Your task to perform on an android device: Empty the shopping cart on target. Add "alienware aurora" to the cart on target, then select checkout. Image 0: 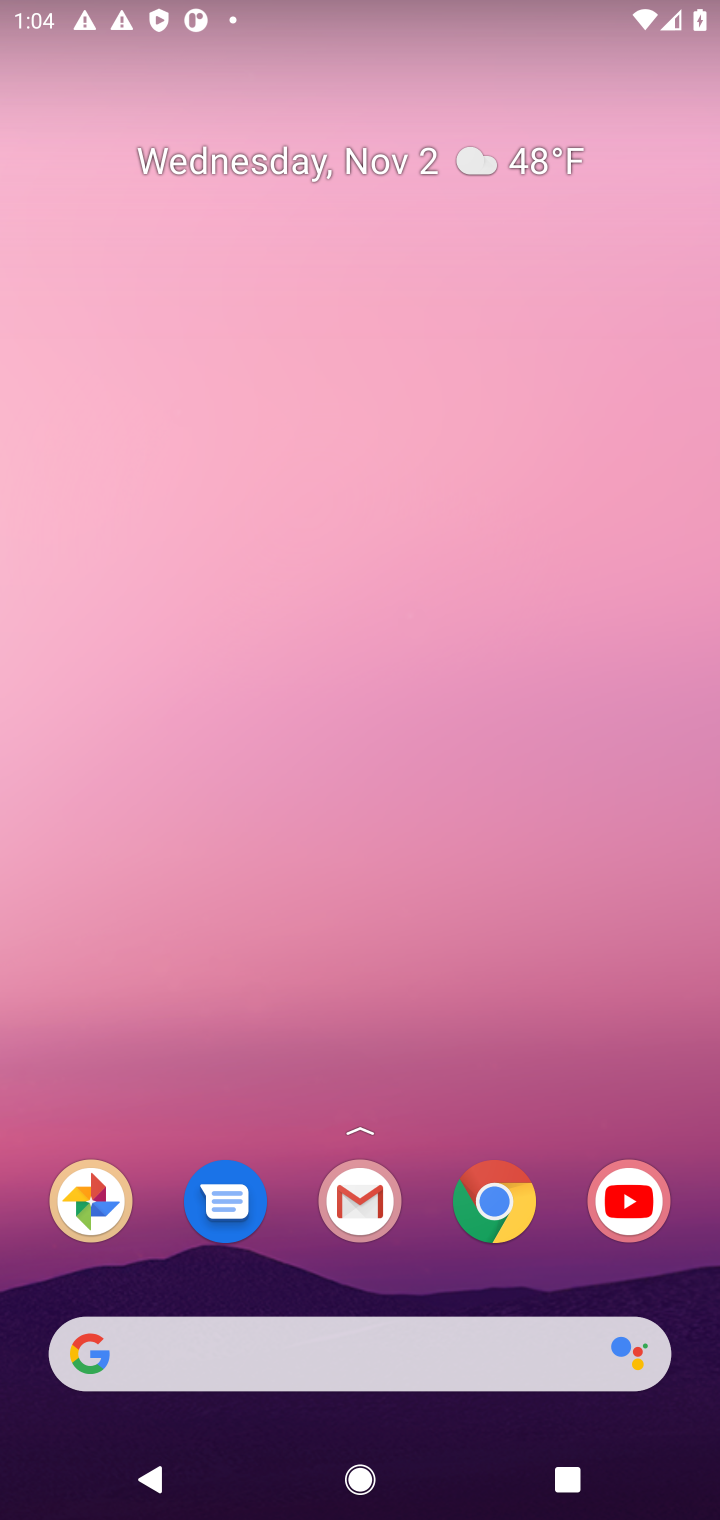
Step 0: click (506, 1207)
Your task to perform on an android device: Empty the shopping cart on target. Add "alienware aurora" to the cart on target, then select checkout. Image 1: 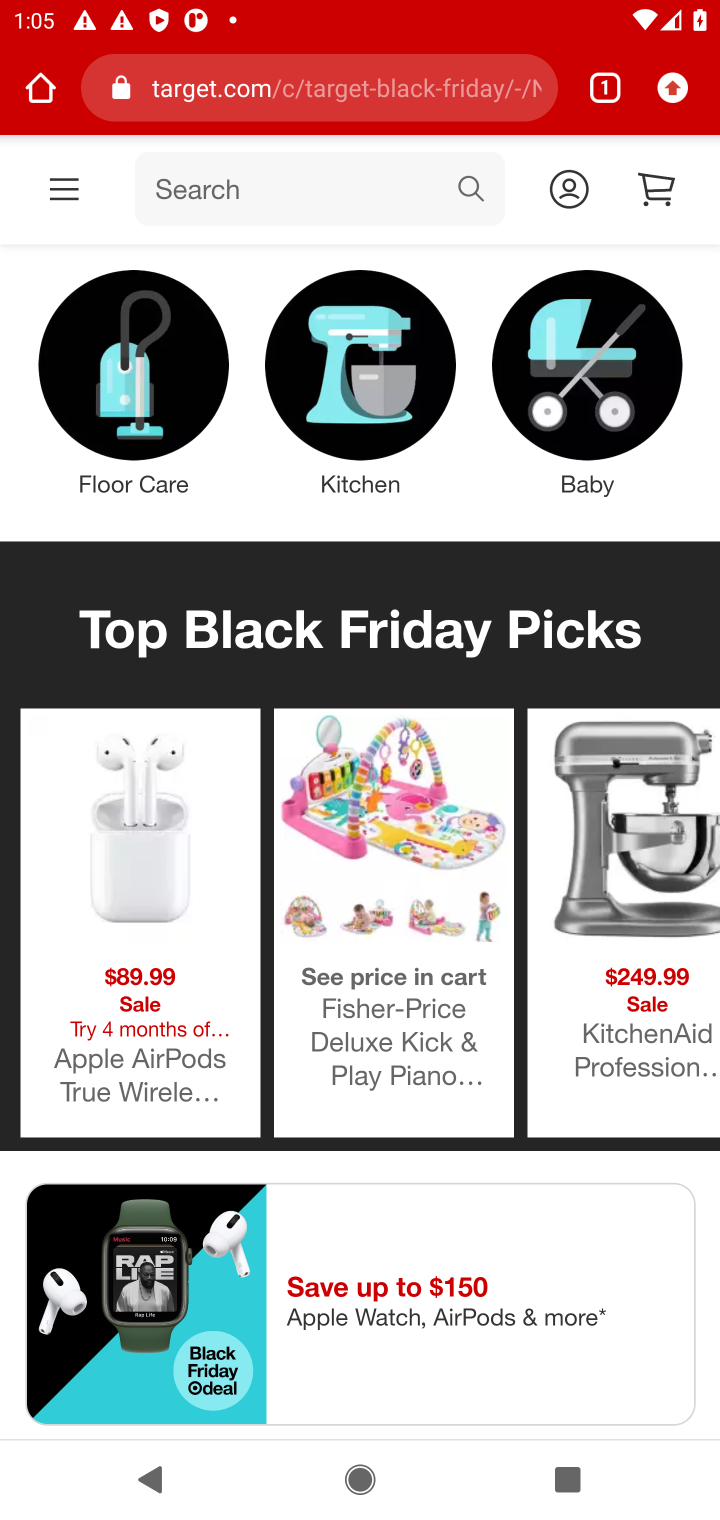
Step 1: click (481, 186)
Your task to perform on an android device: Empty the shopping cart on target. Add "alienware aurora" to the cart on target, then select checkout. Image 2: 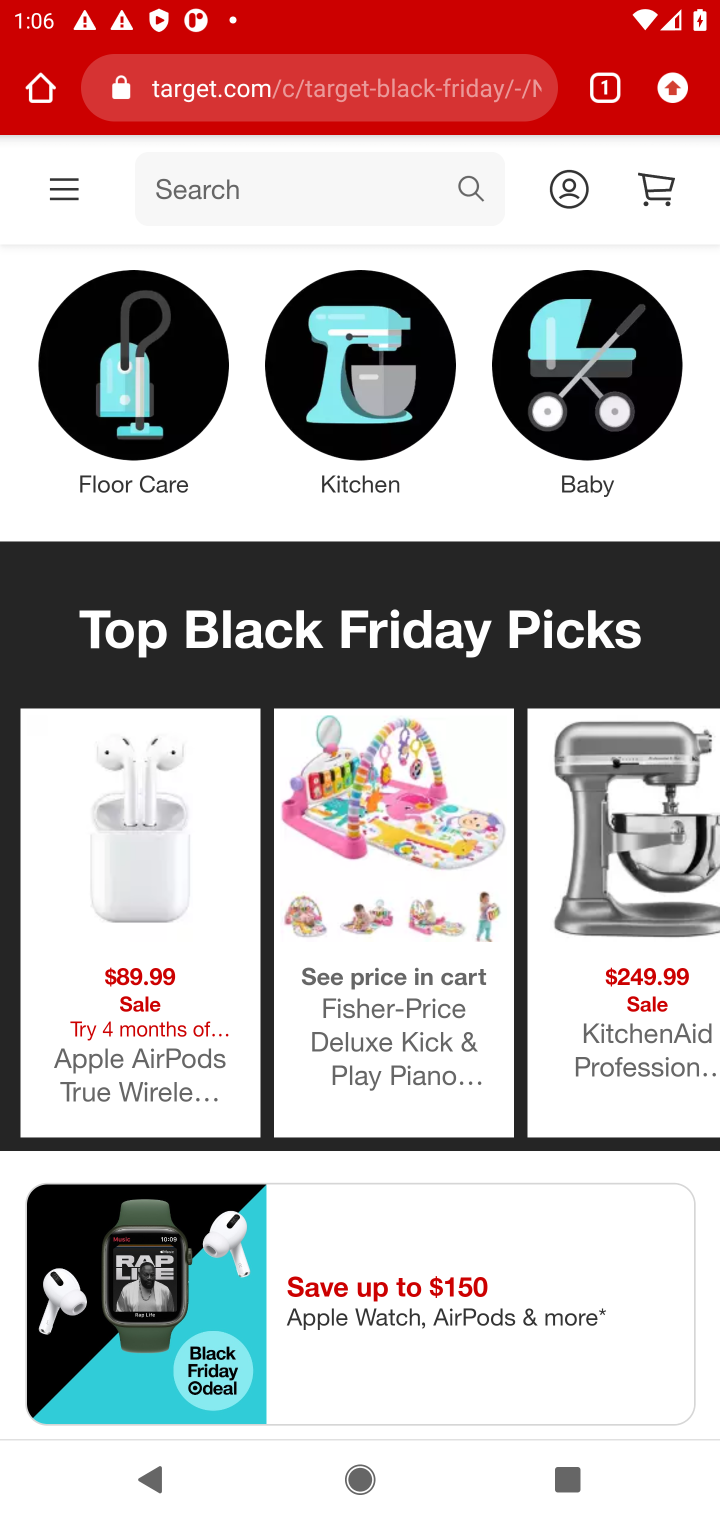
Step 2: click (469, 186)
Your task to perform on an android device: Empty the shopping cart on target. Add "alienware aurora" to the cart on target, then select checkout. Image 3: 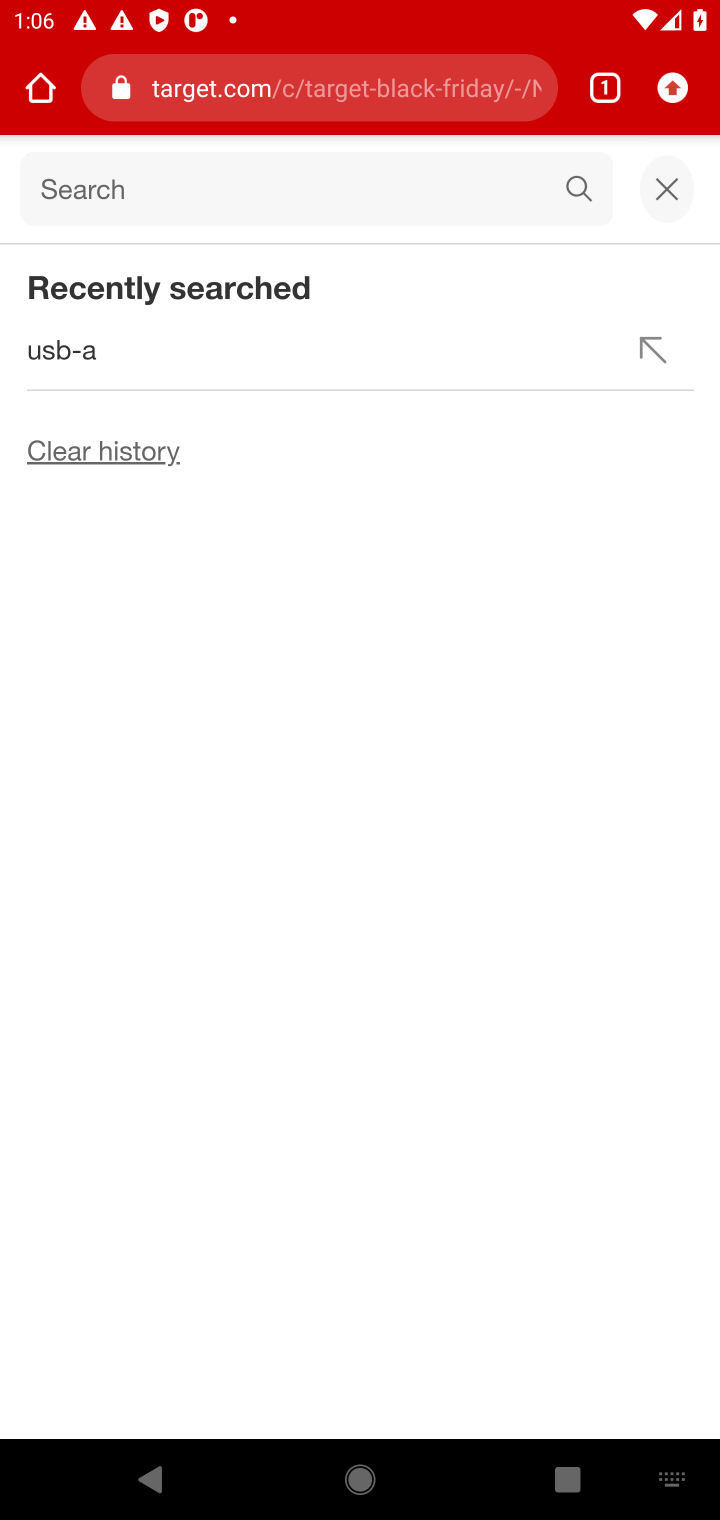
Step 3: click (677, 189)
Your task to perform on an android device: Empty the shopping cart on target. Add "alienware aurora" to the cart on target, then select checkout. Image 4: 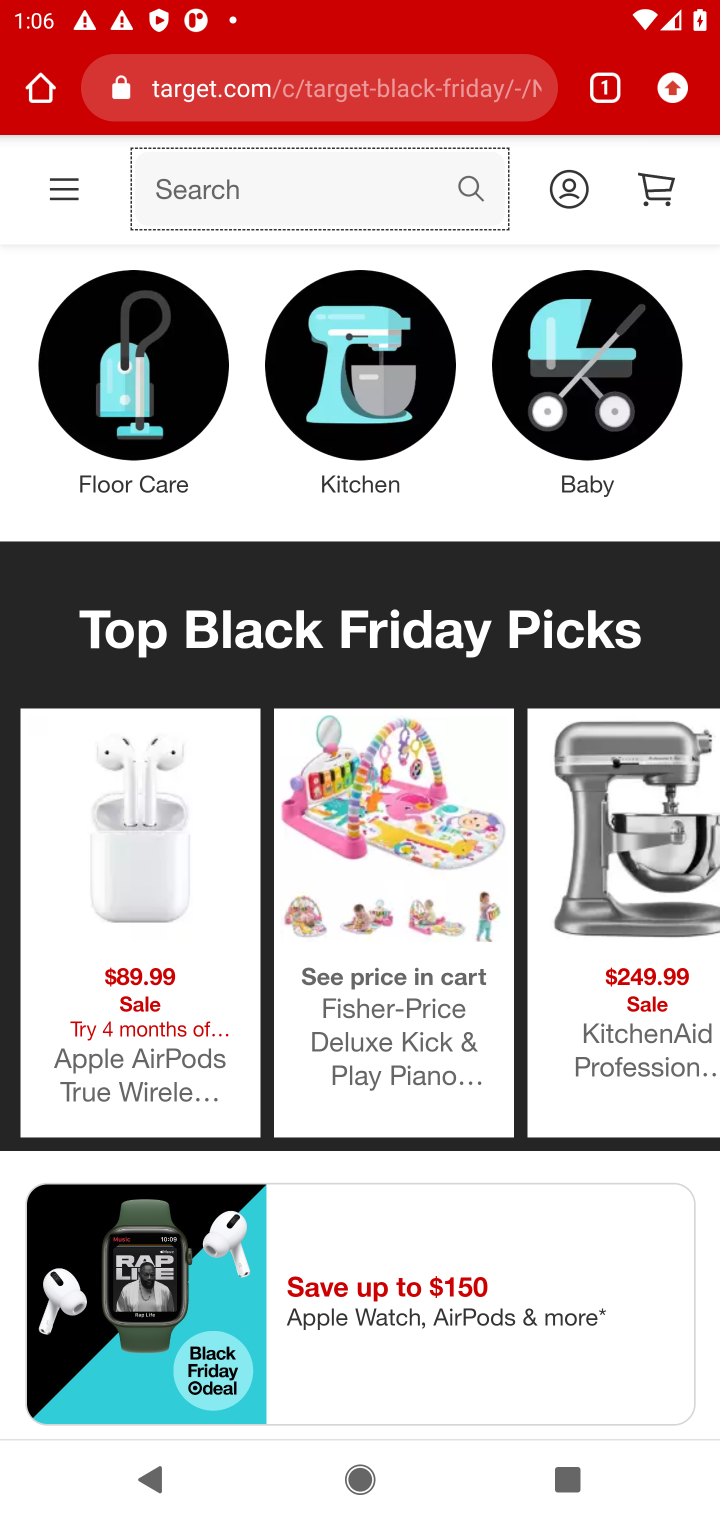
Step 4: click (663, 191)
Your task to perform on an android device: Empty the shopping cart on target. Add "alienware aurora" to the cart on target, then select checkout. Image 5: 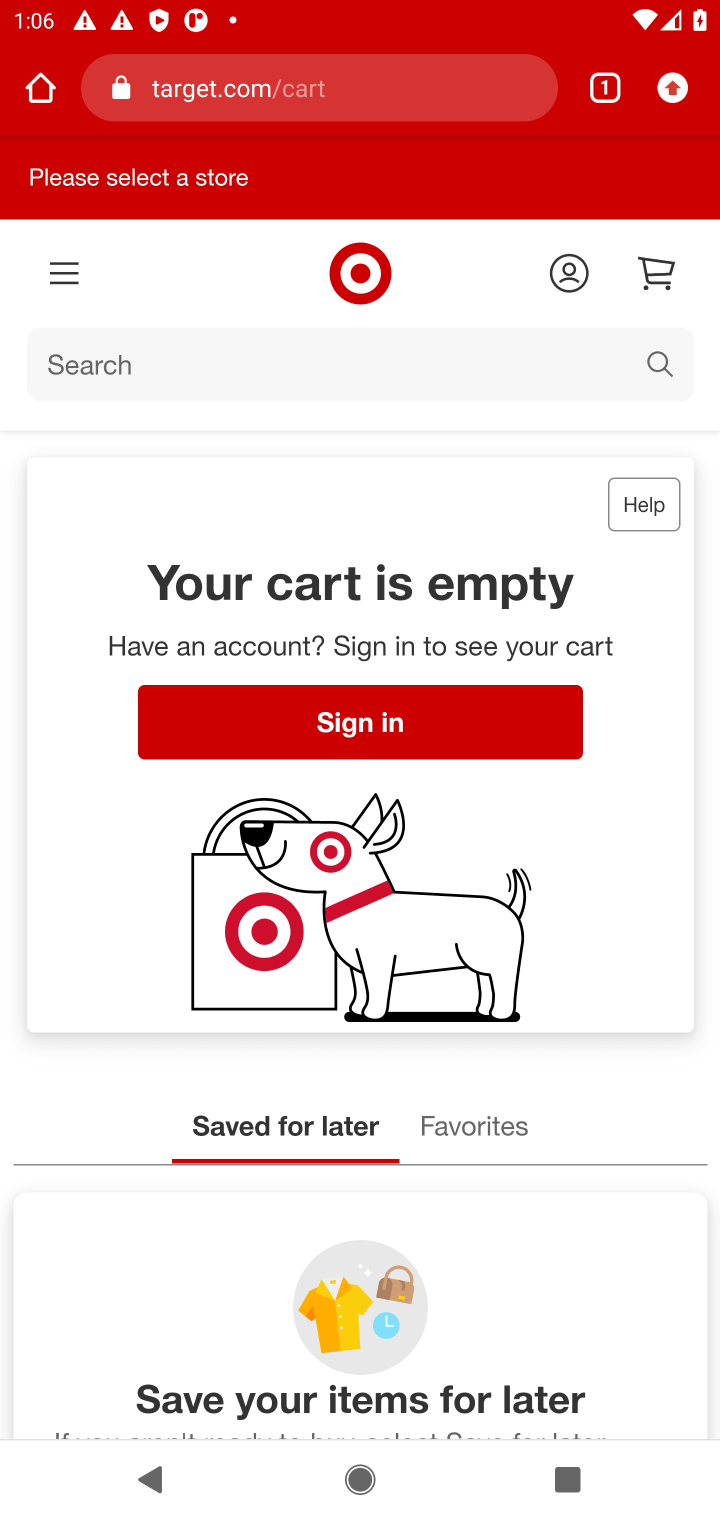
Step 5: click (651, 359)
Your task to perform on an android device: Empty the shopping cart on target. Add "alienware aurora" to the cart on target, then select checkout. Image 6: 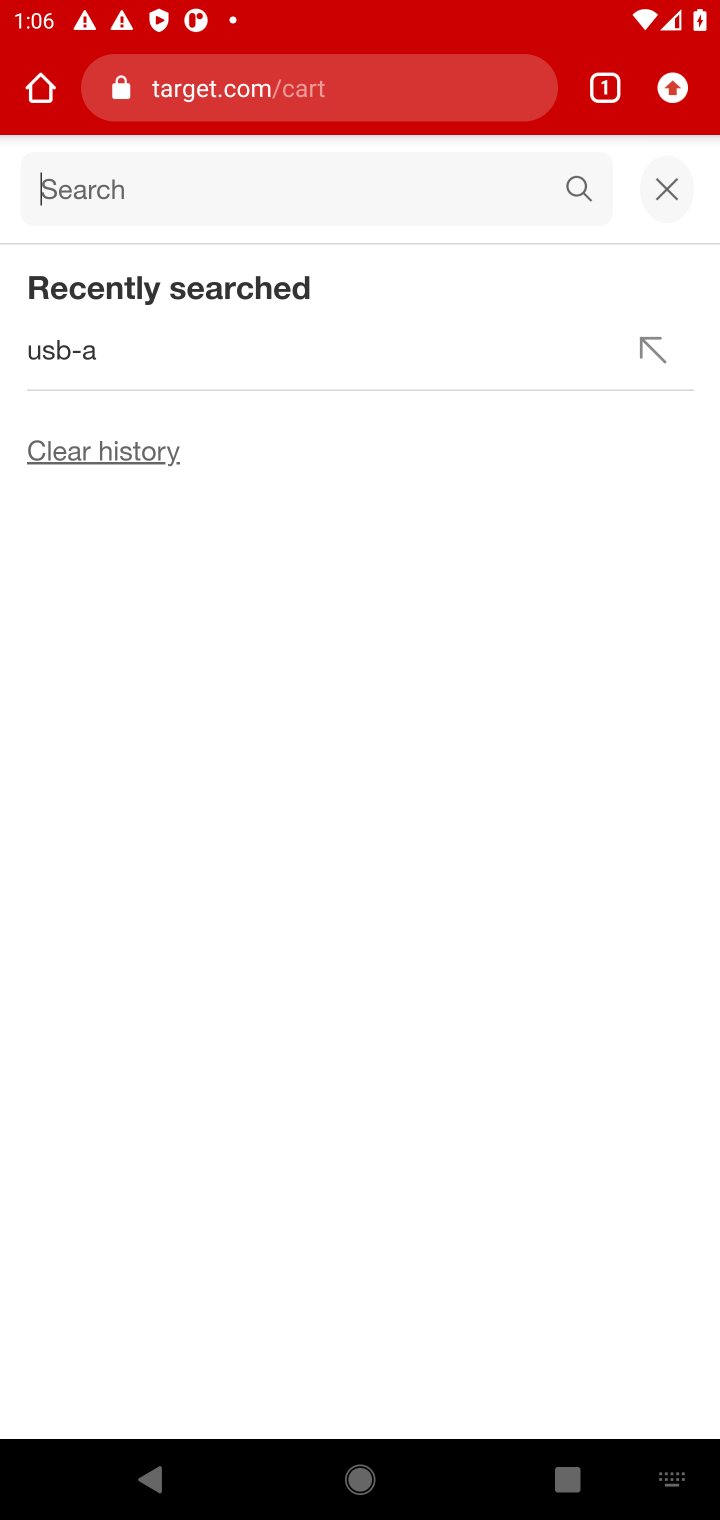
Step 6: press enter
Your task to perform on an android device: Empty the shopping cart on target. Add "alienware aurora" to the cart on target, then select checkout. Image 7: 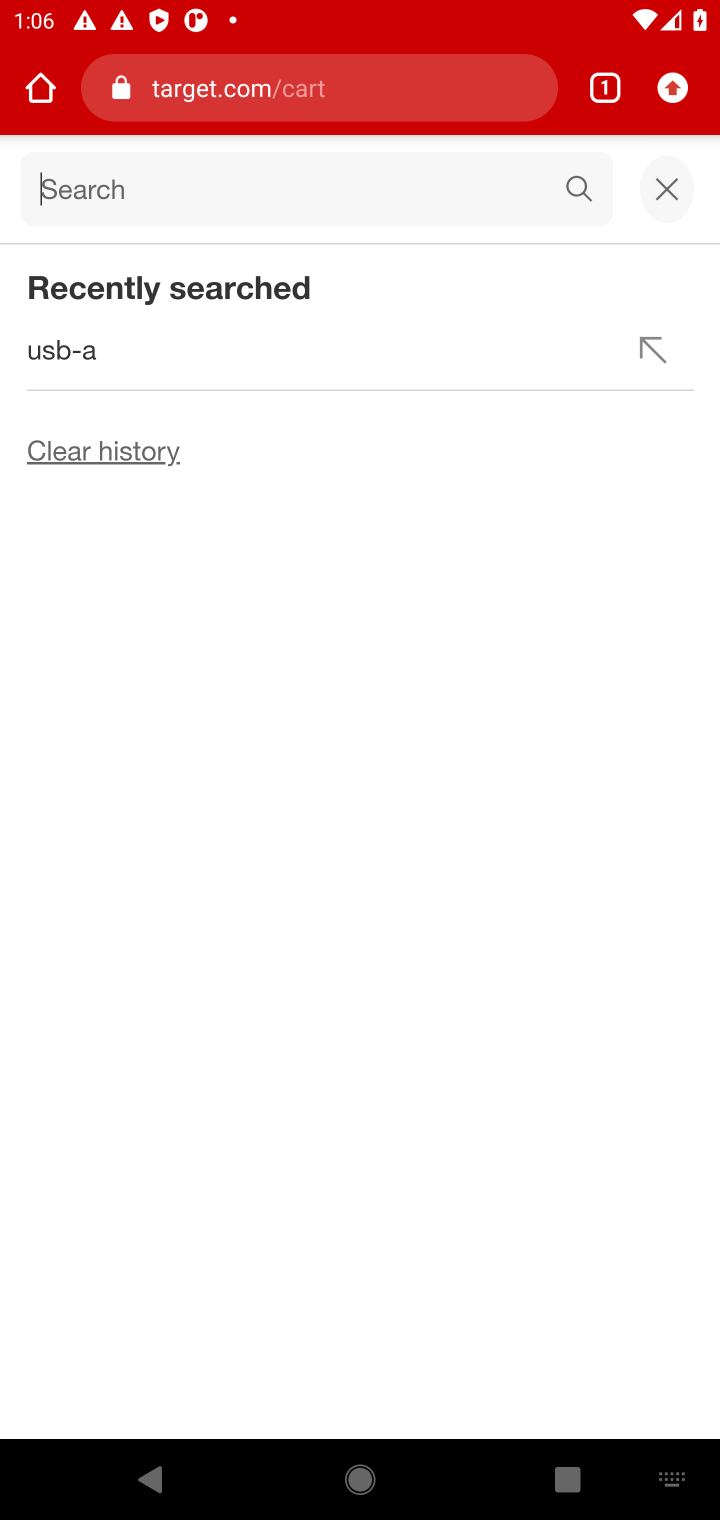
Step 7: type "alienware aurora"
Your task to perform on an android device: Empty the shopping cart on target. Add "alienware aurora" to the cart on target, then select checkout. Image 8: 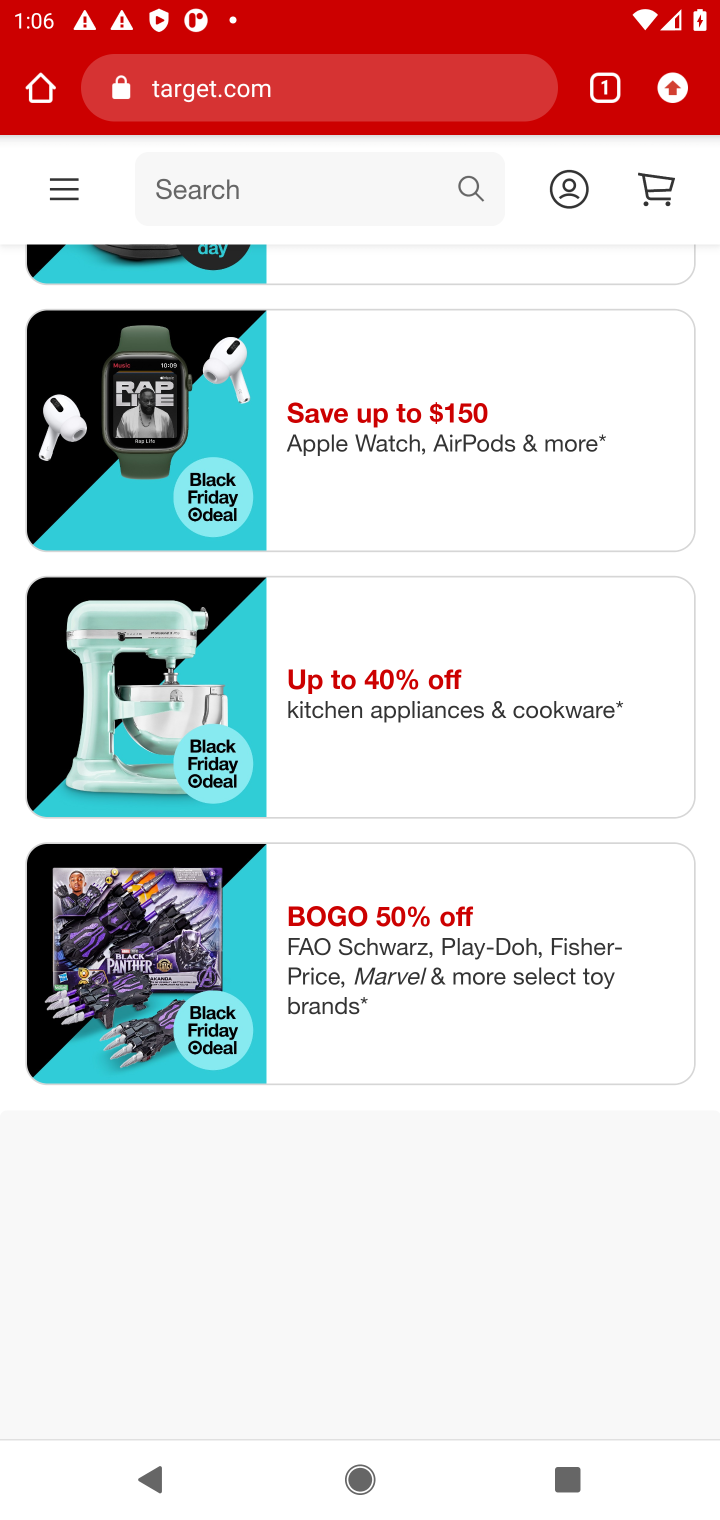
Step 8: click (464, 178)
Your task to perform on an android device: Empty the shopping cart on target. Add "alienware aurora" to the cart on target, then select checkout. Image 9: 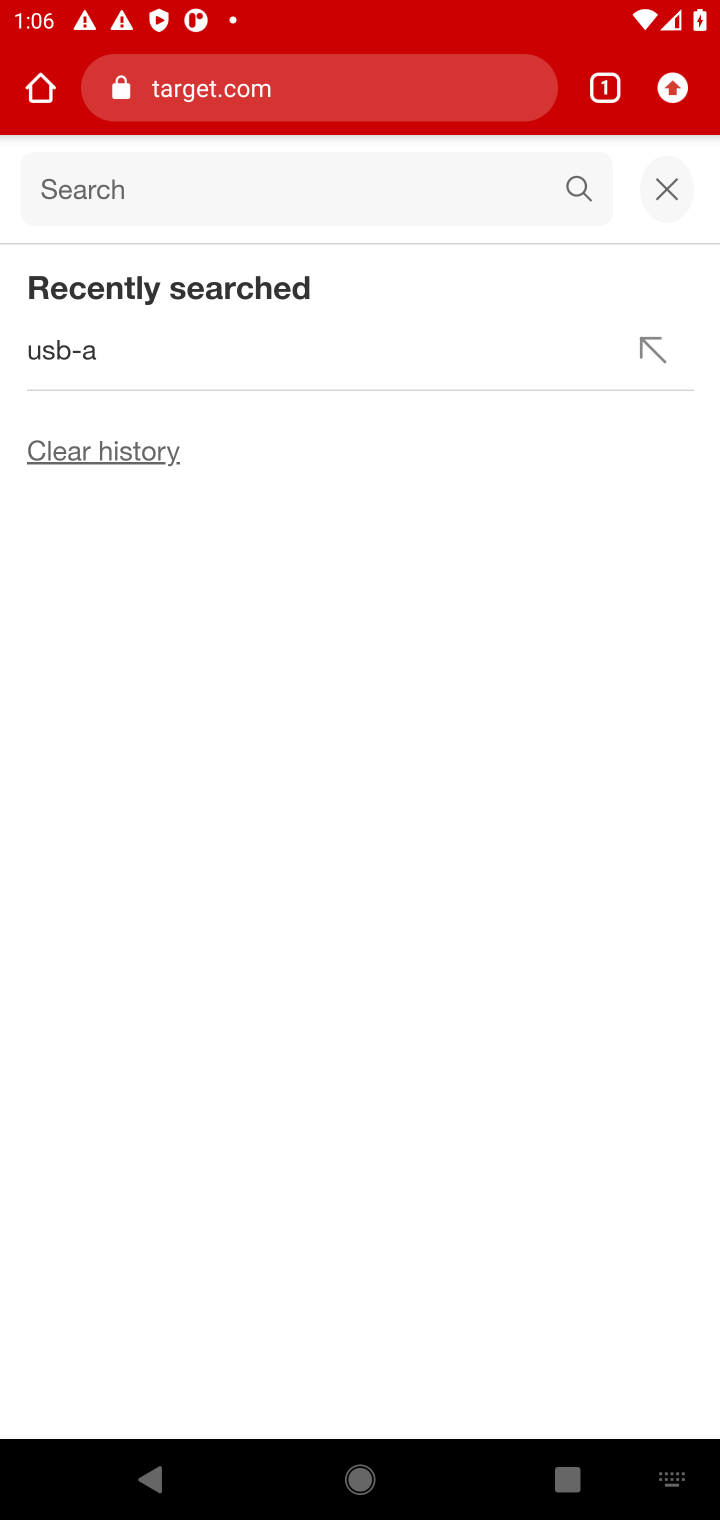
Step 9: type "alienware aurora"
Your task to perform on an android device: Empty the shopping cart on target. Add "alienware aurora" to the cart on target, then select checkout. Image 10: 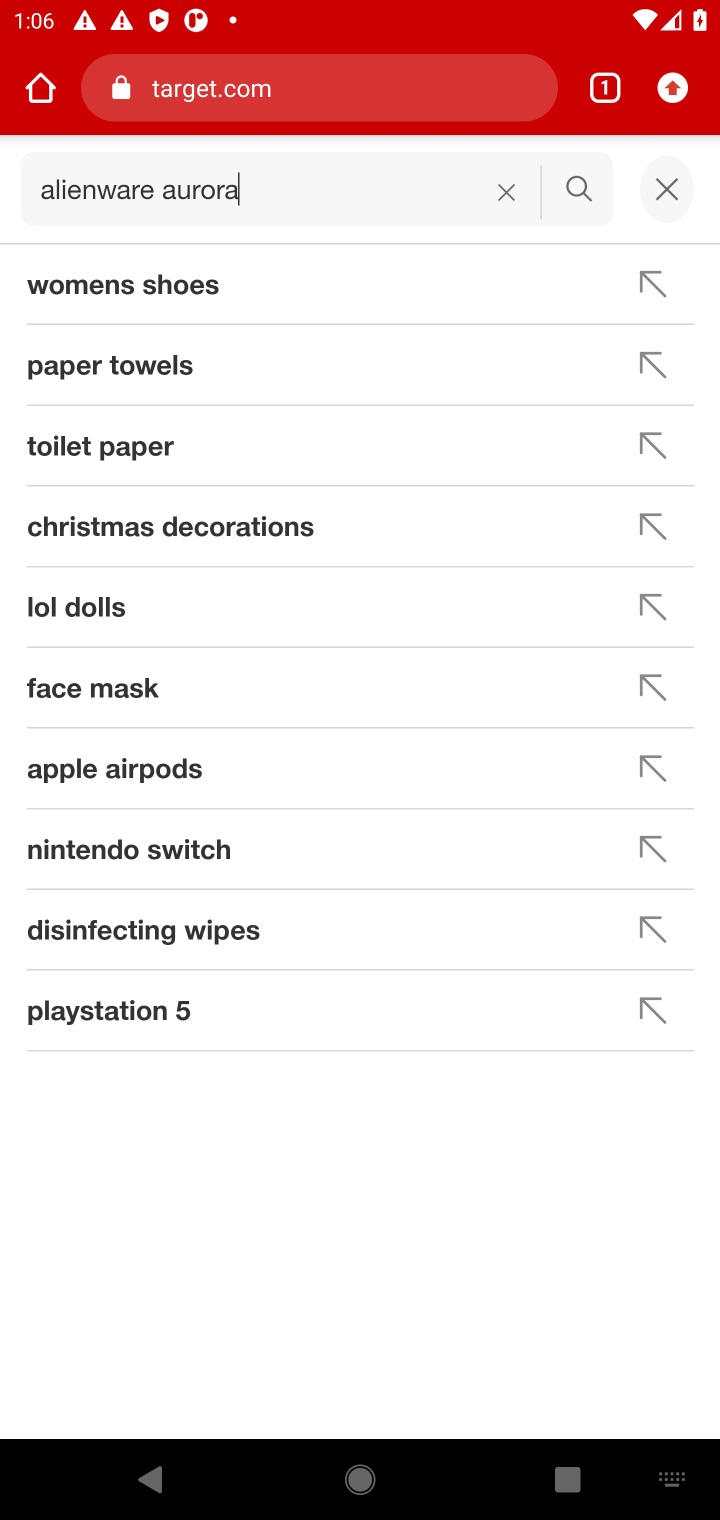
Step 10: press enter
Your task to perform on an android device: Empty the shopping cart on target. Add "alienware aurora" to the cart on target, then select checkout. Image 11: 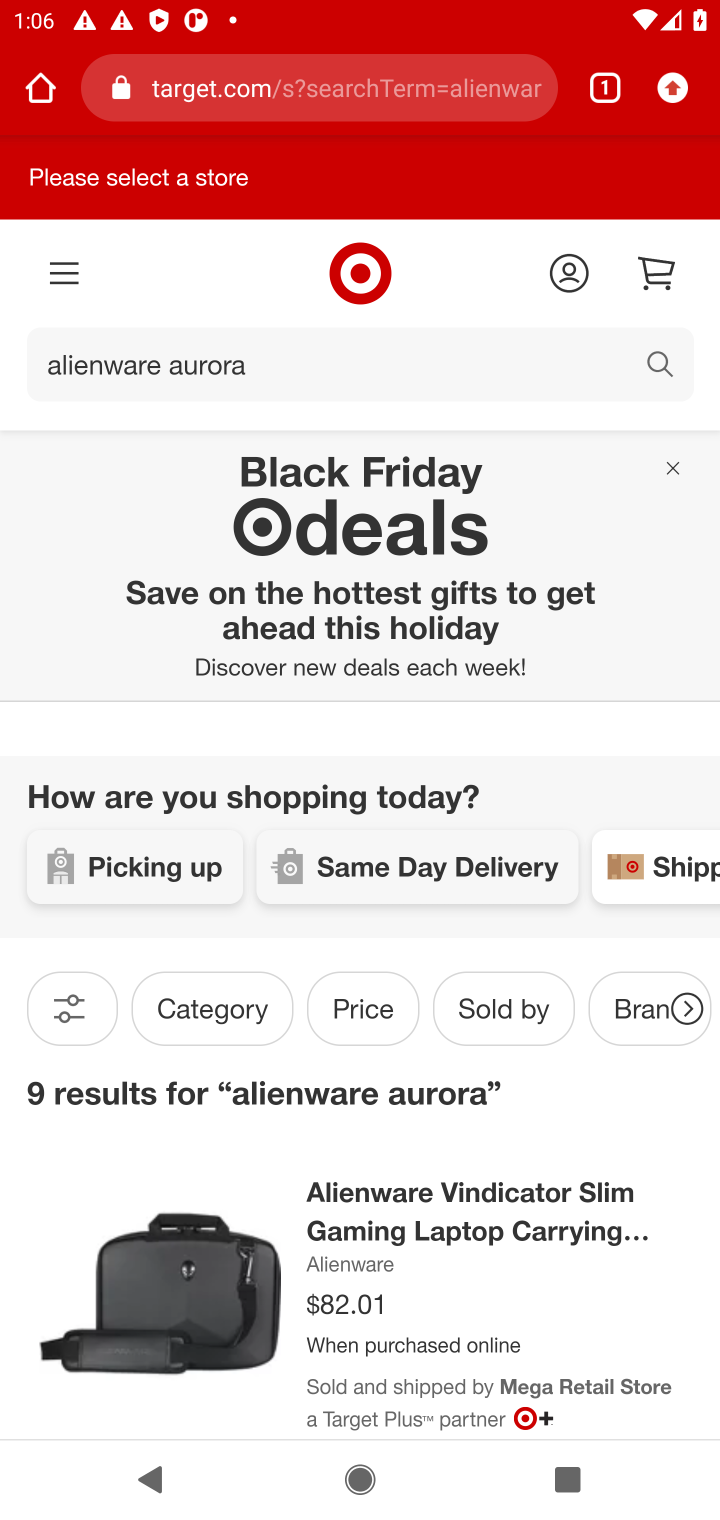
Step 11: drag from (481, 922) to (495, 809)
Your task to perform on an android device: Empty the shopping cart on target. Add "alienware aurora" to the cart on target, then select checkout. Image 12: 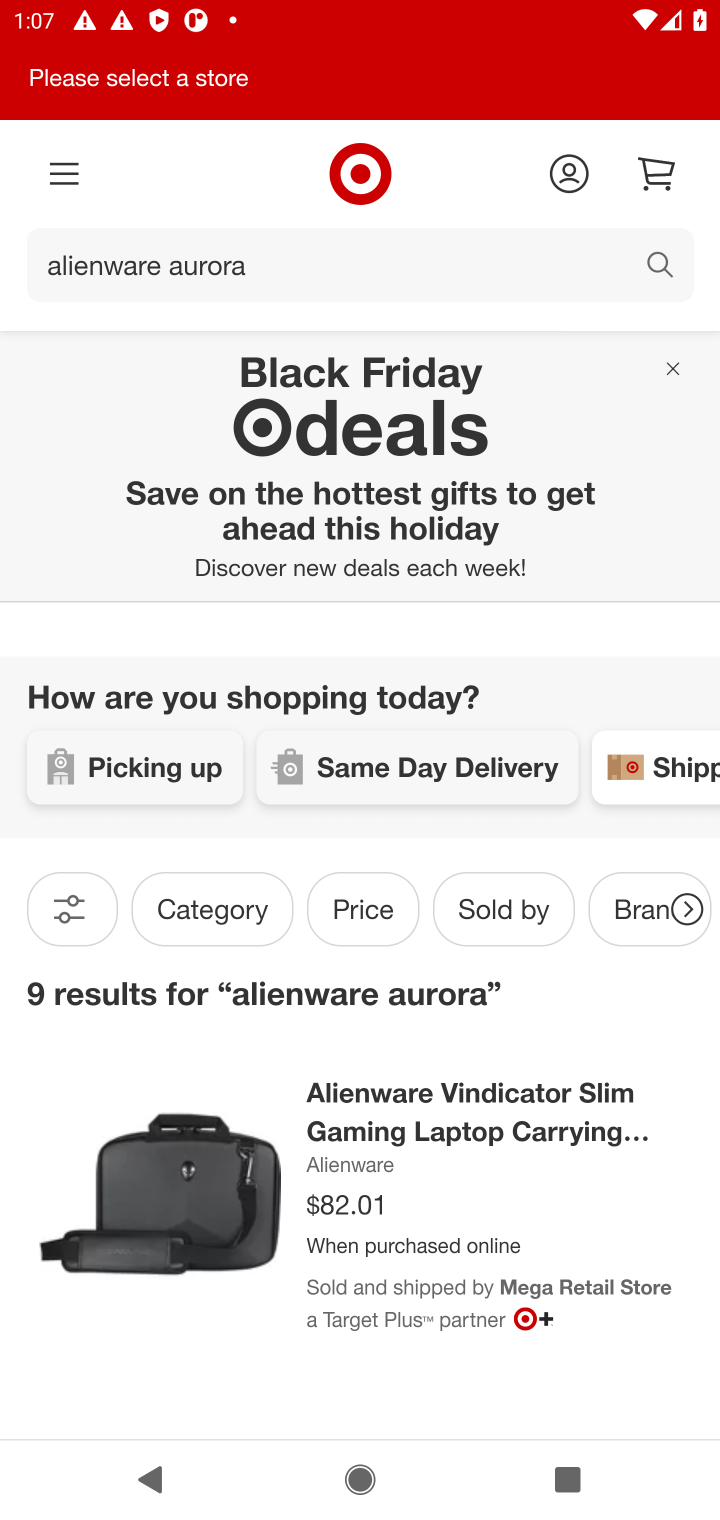
Step 12: drag from (457, 1136) to (462, 554)
Your task to perform on an android device: Empty the shopping cart on target. Add "alienware aurora" to the cart on target, then select checkout. Image 13: 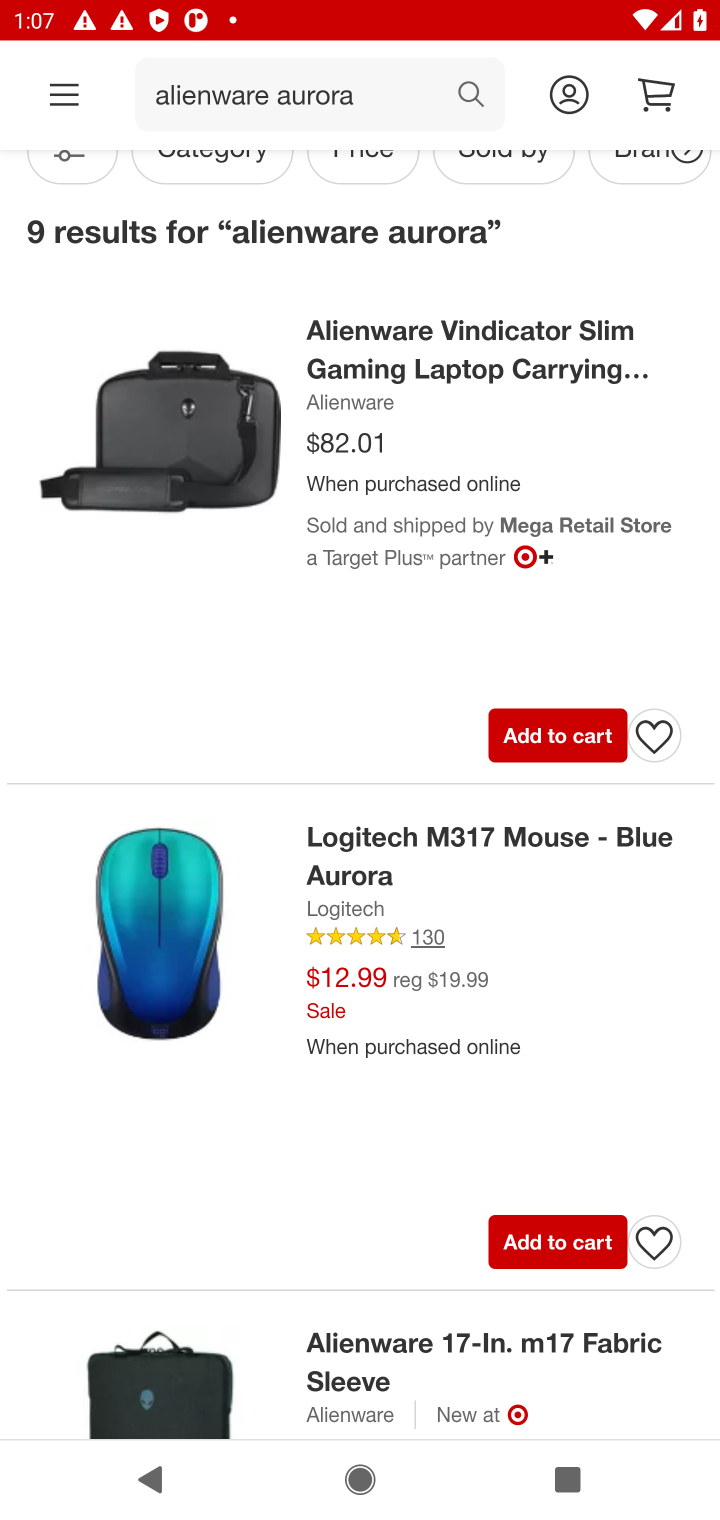
Step 13: drag from (511, 1003) to (505, 464)
Your task to perform on an android device: Empty the shopping cart on target. Add "alienware aurora" to the cart on target, then select checkout. Image 14: 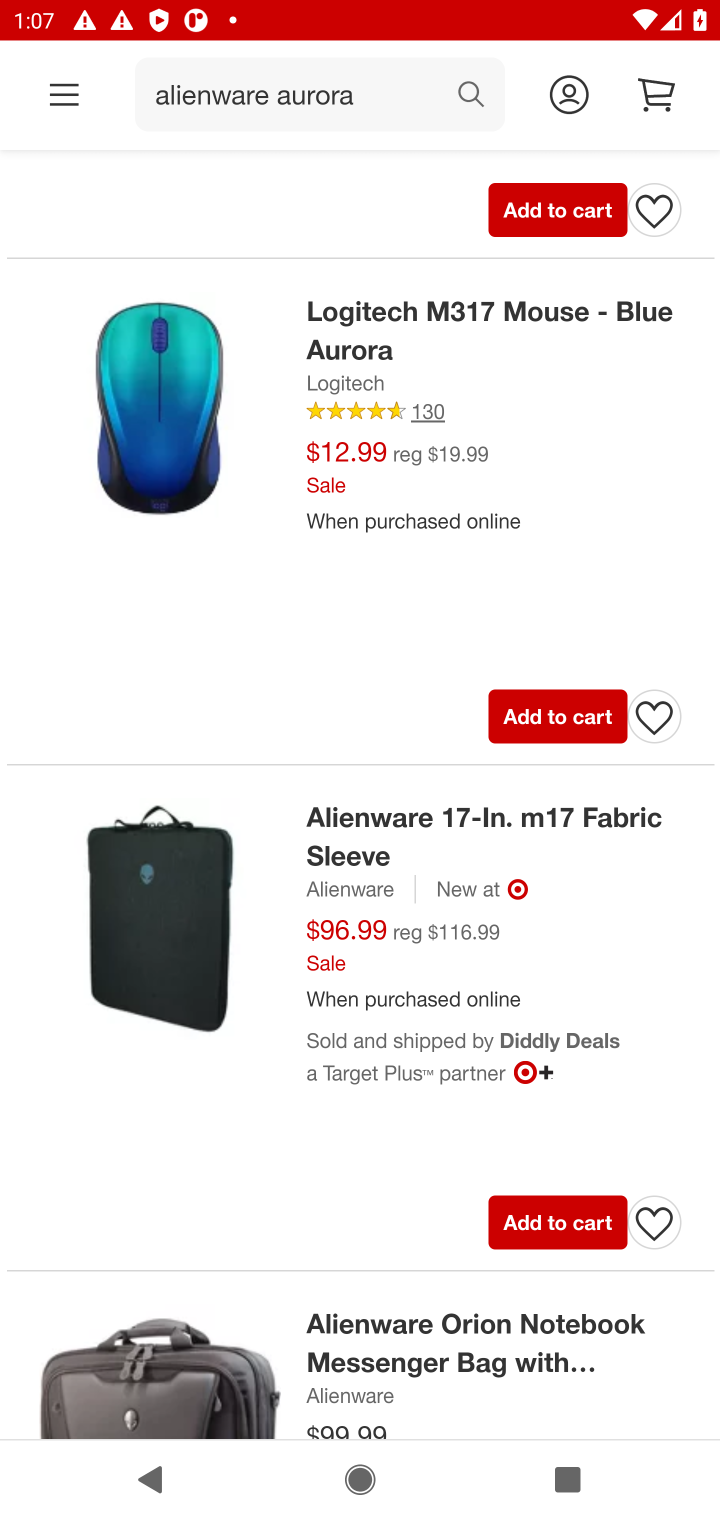
Step 14: drag from (443, 1308) to (436, 696)
Your task to perform on an android device: Empty the shopping cart on target. Add "alienware aurora" to the cart on target, then select checkout. Image 15: 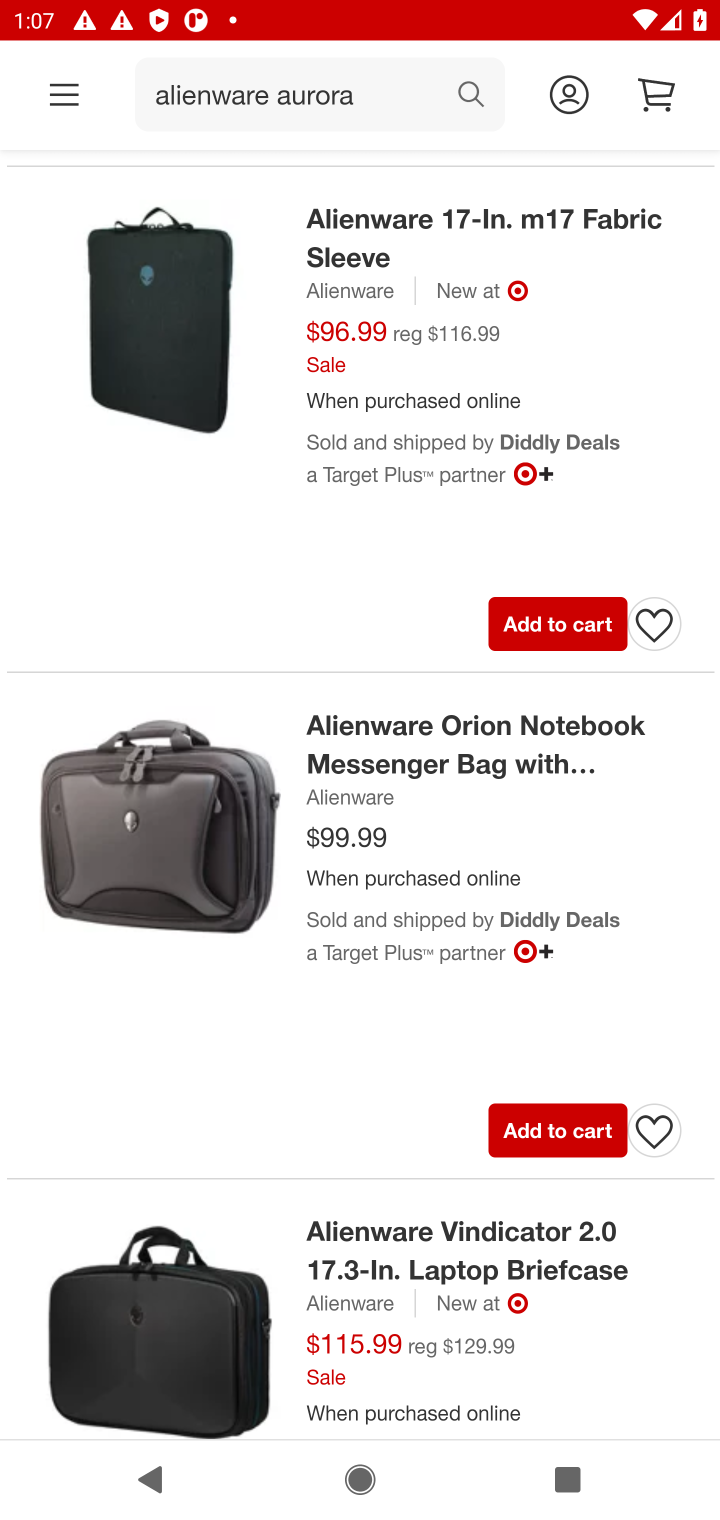
Step 15: drag from (519, 1280) to (548, 897)
Your task to perform on an android device: Empty the shopping cart on target. Add "alienware aurora" to the cart on target, then select checkout. Image 16: 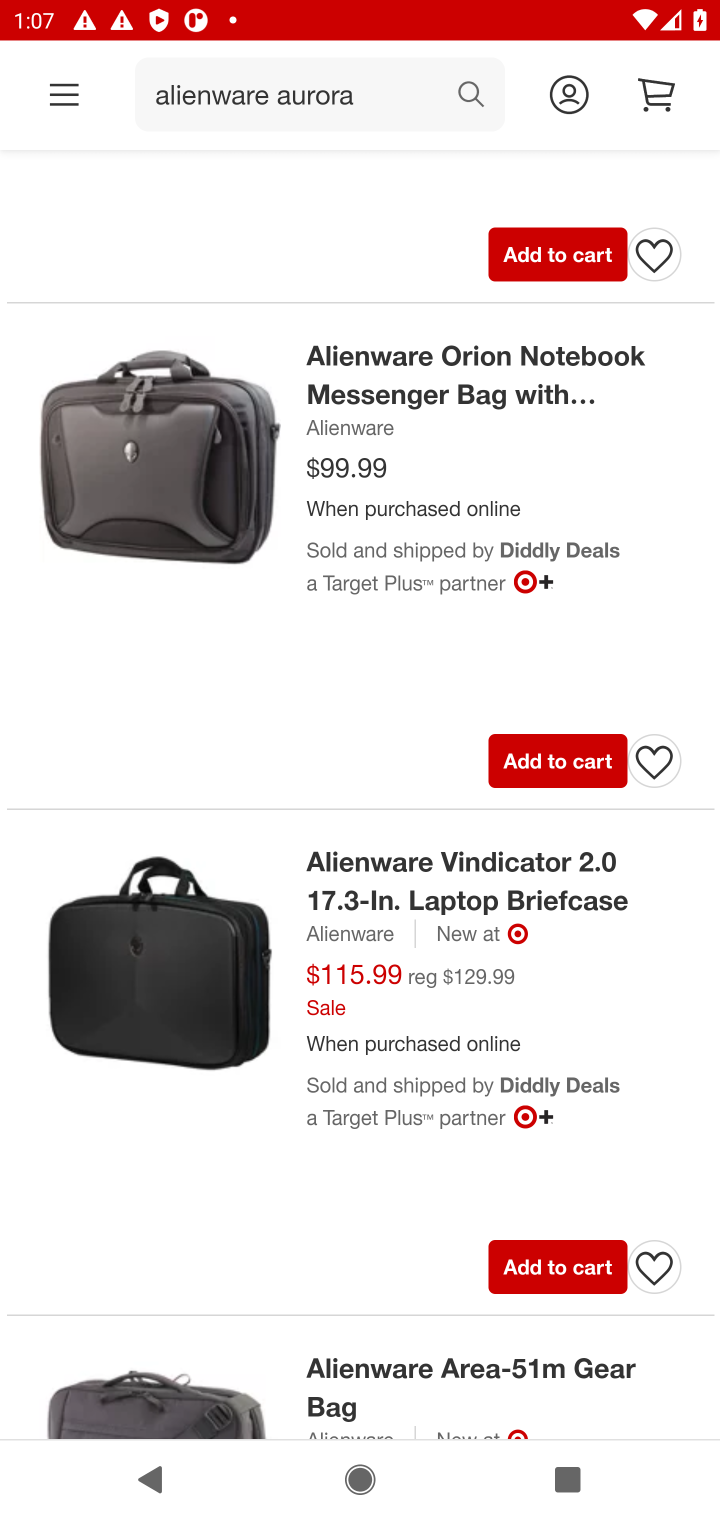
Step 16: drag from (336, 1198) to (371, 905)
Your task to perform on an android device: Empty the shopping cart on target. Add "alienware aurora" to the cart on target, then select checkout. Image 17: 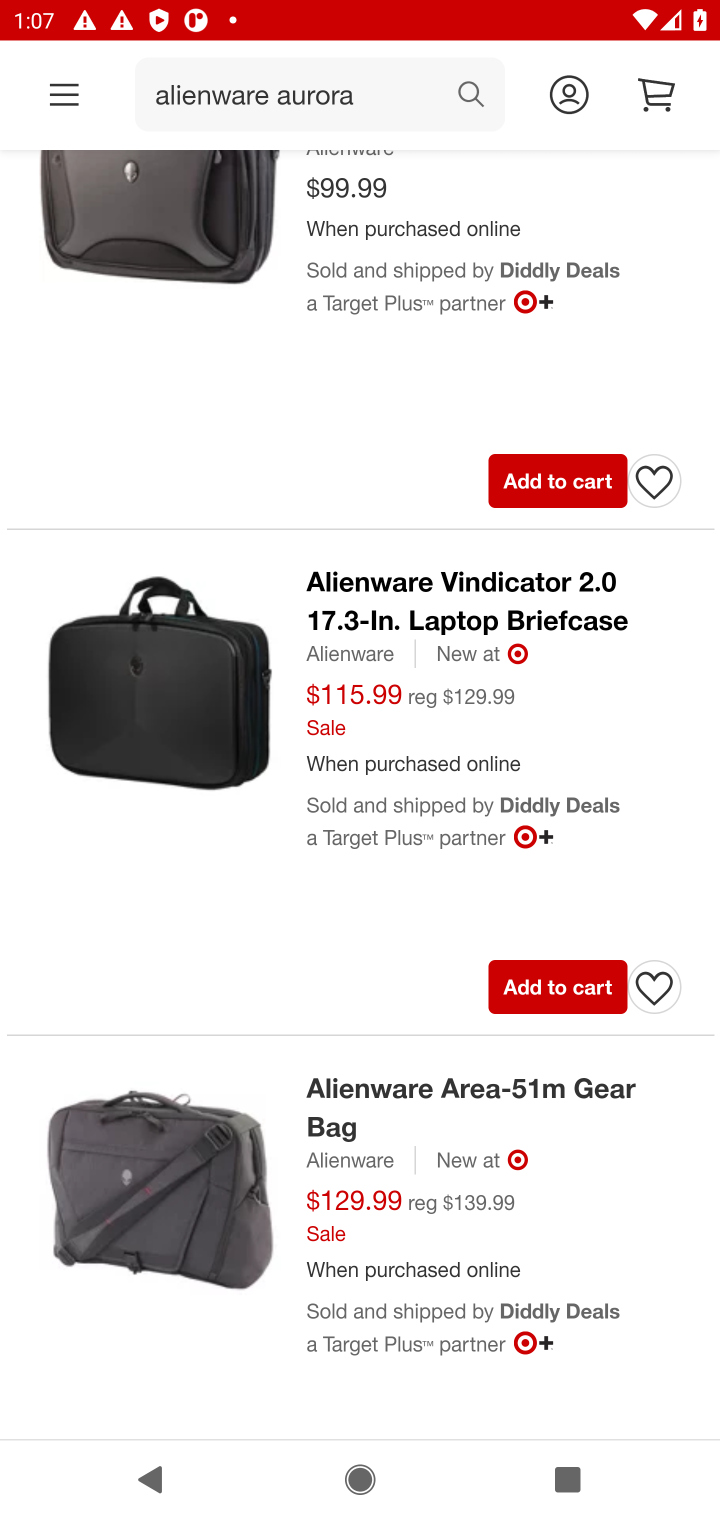
Step 17: drag from (475, 1164) to (501, 731)
Your task to perform on an android device: Empty the shopping cart on target. Add "alienware aurora" to the cart on target, then select checkout. Image 18: 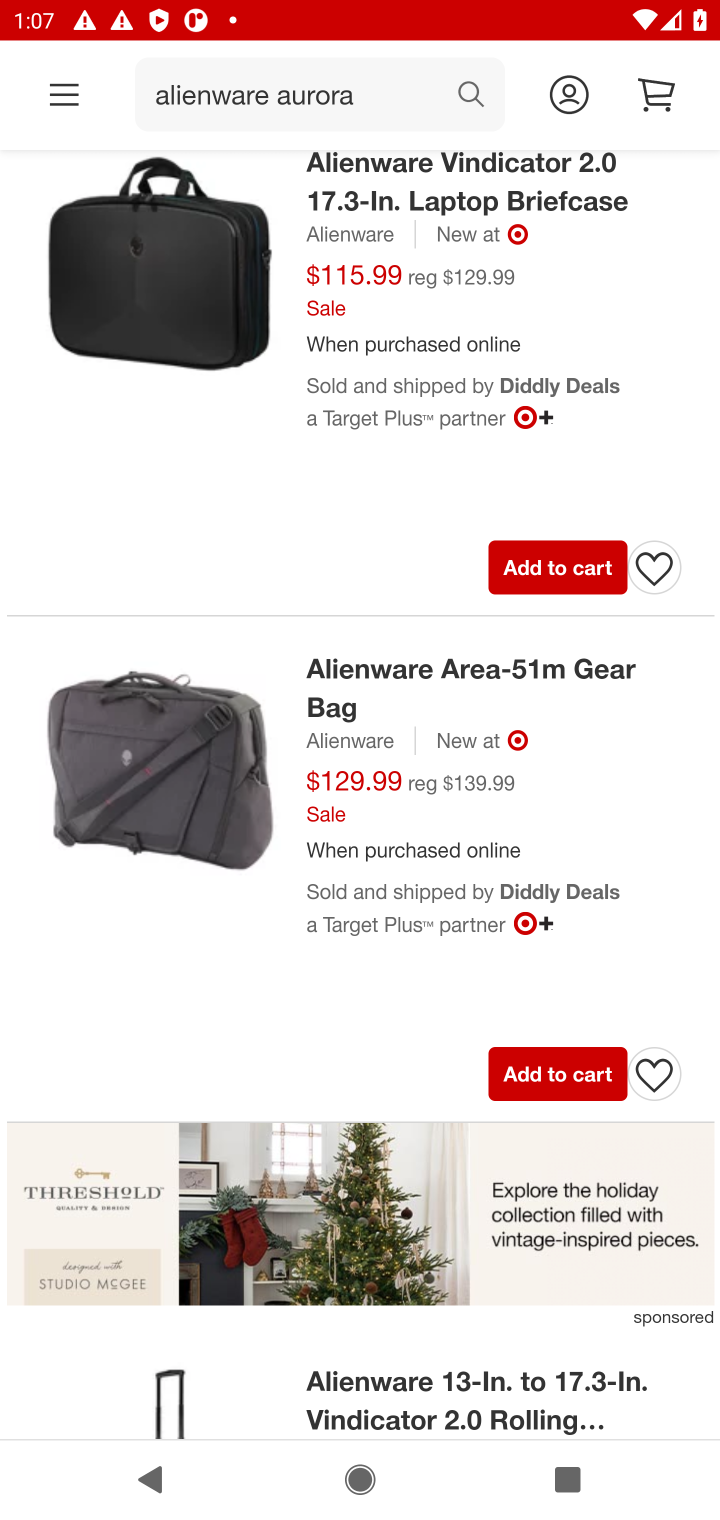
Step 18: drag from (446, 1125) to (444, 612)
Your task to perform on an android device: Empty the shopping cart on target. Add "alienware aurora" to the cart on target, then select checkout. Image 19: 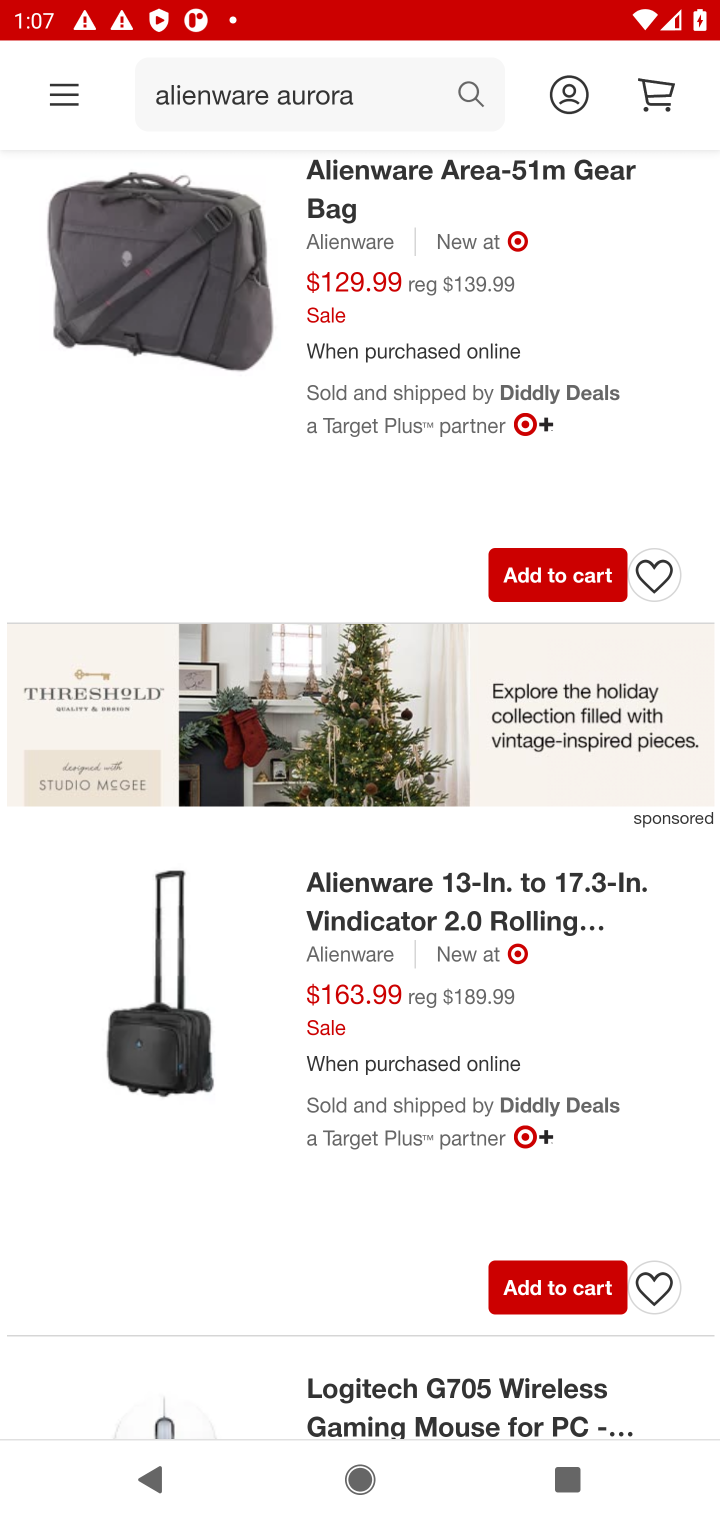
Step 19: drag from (414, 839) to (416, 573)
Your task to perform on an android device: Empty the shopping cart on target. Add "alienware aurora" to the cart on target, then select checkout. Image 20: 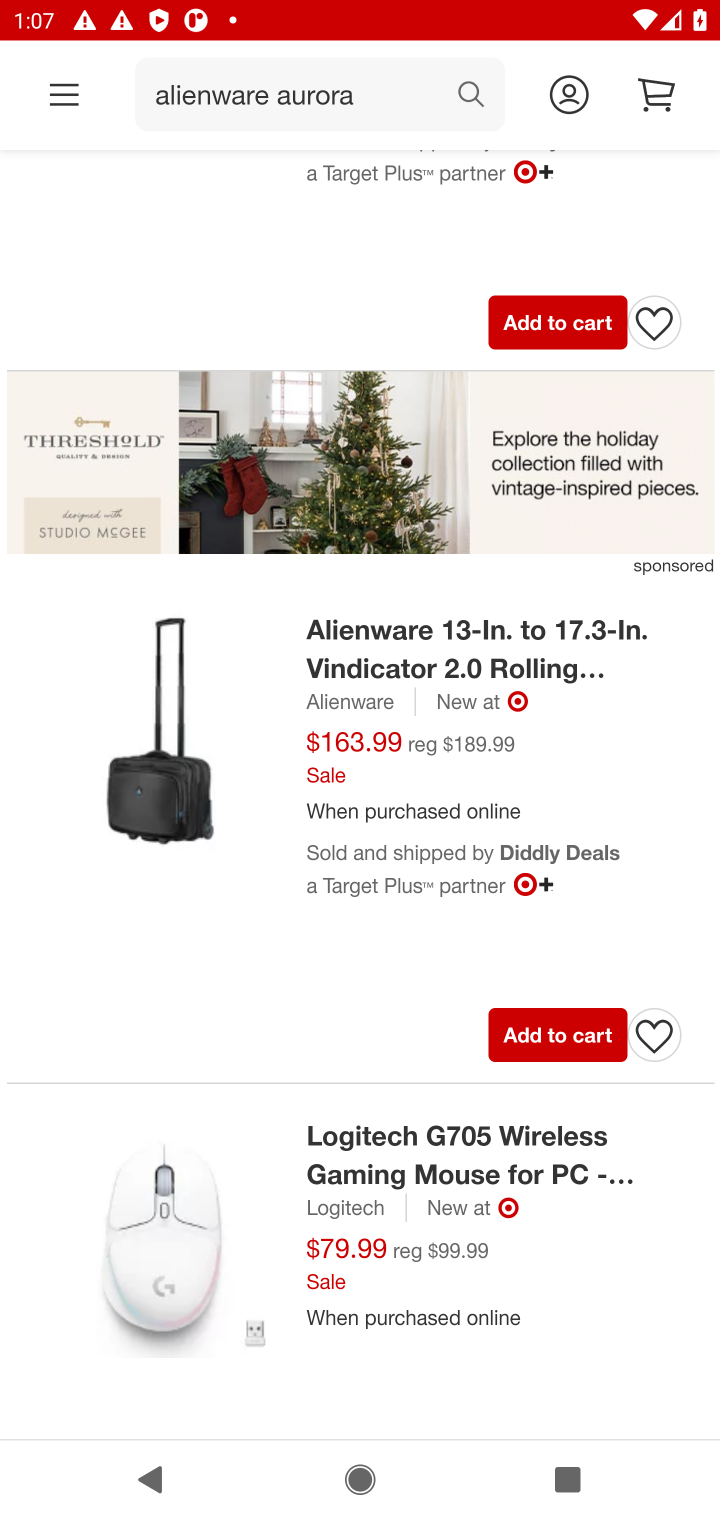
Step 20: drag from (392, 958) to (454, 541)
Your task to perform on an android device: Empty the shopping cart on target. Add "alienware aurora" to the cart on target, then select checkout. Image 21: 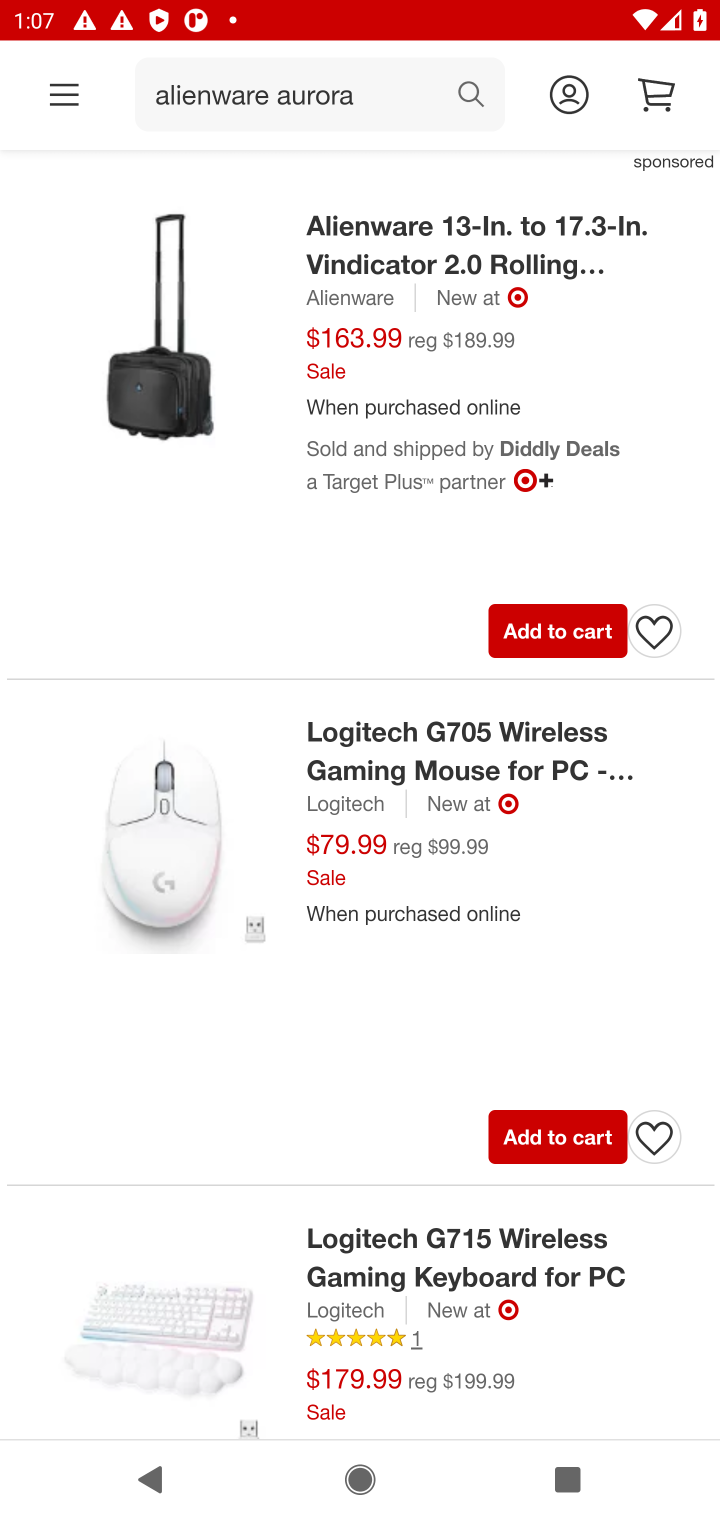
Step 21: drag from (362, 794) to (435, 1364)
Your task to perform on an android device: Empty the shopping cart on target. Add "alienware aurora" to the cart on target, then select checkout. Image 22: 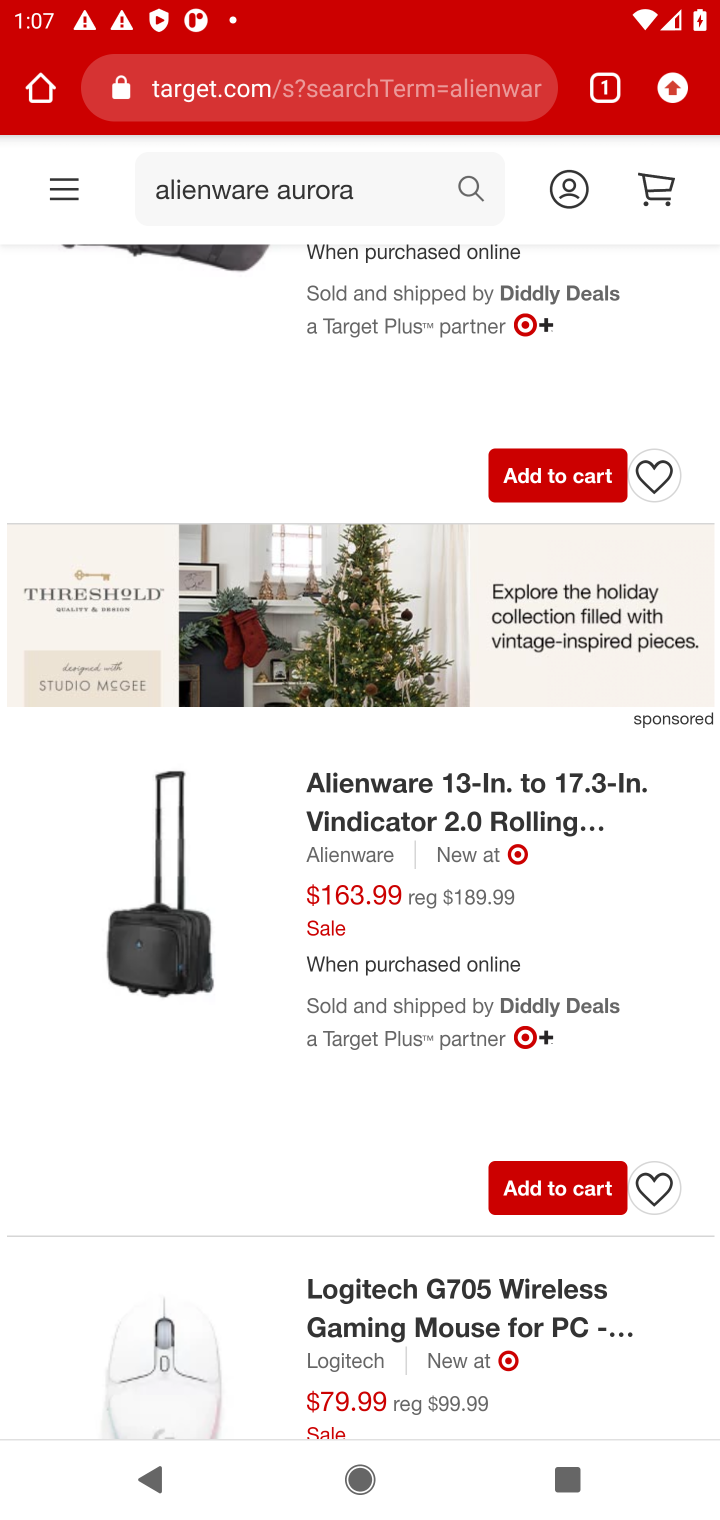
Step 22: drag from (238, 381) to (313, 1056)
Your task to perform on an android device: Empty the shopping cart on target. Add "alienware aurora" to the cart on target, then select checkout. Image 23: 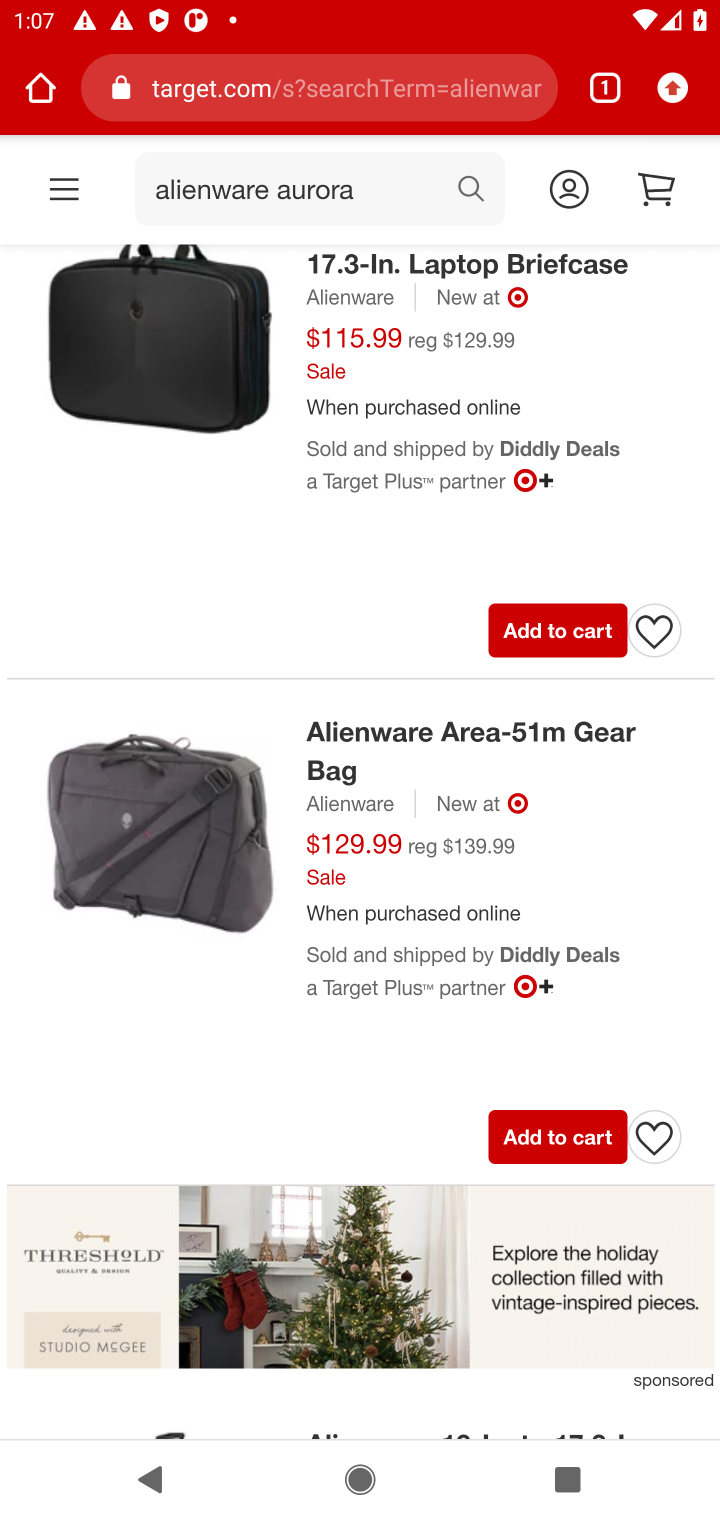
Step 23: drag from (376, 404) to (400, 958)
Your task to perform on an android device: Empty the shopping cart on target. Add "alienware aurora" to the cart on target, then select checkout. Image 24: 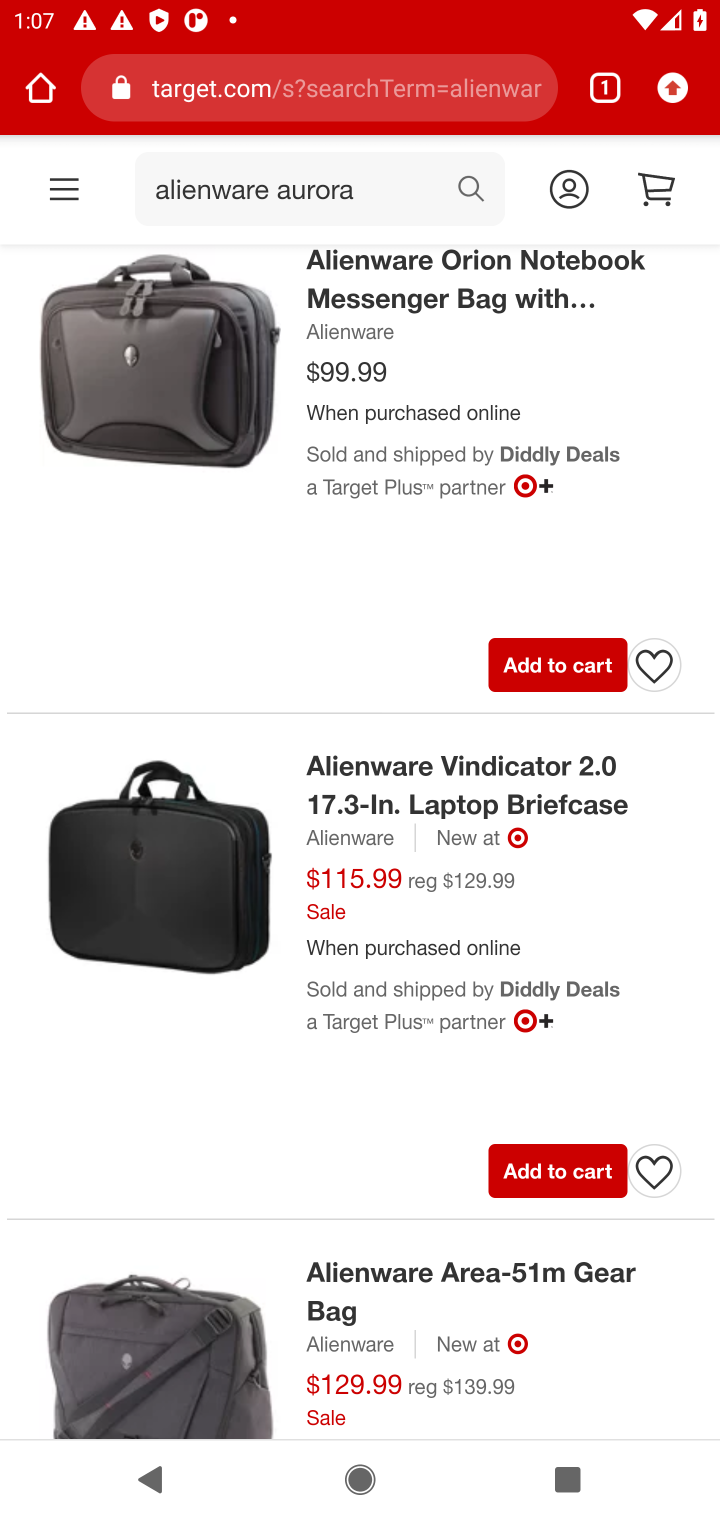
Step 24: drag from (415, 425) to (502, 981)
Your task to perform on an android device: Empty the shopping cart on target. Add "alienware aurora" to the cart on target, then select checkout. Image 25: 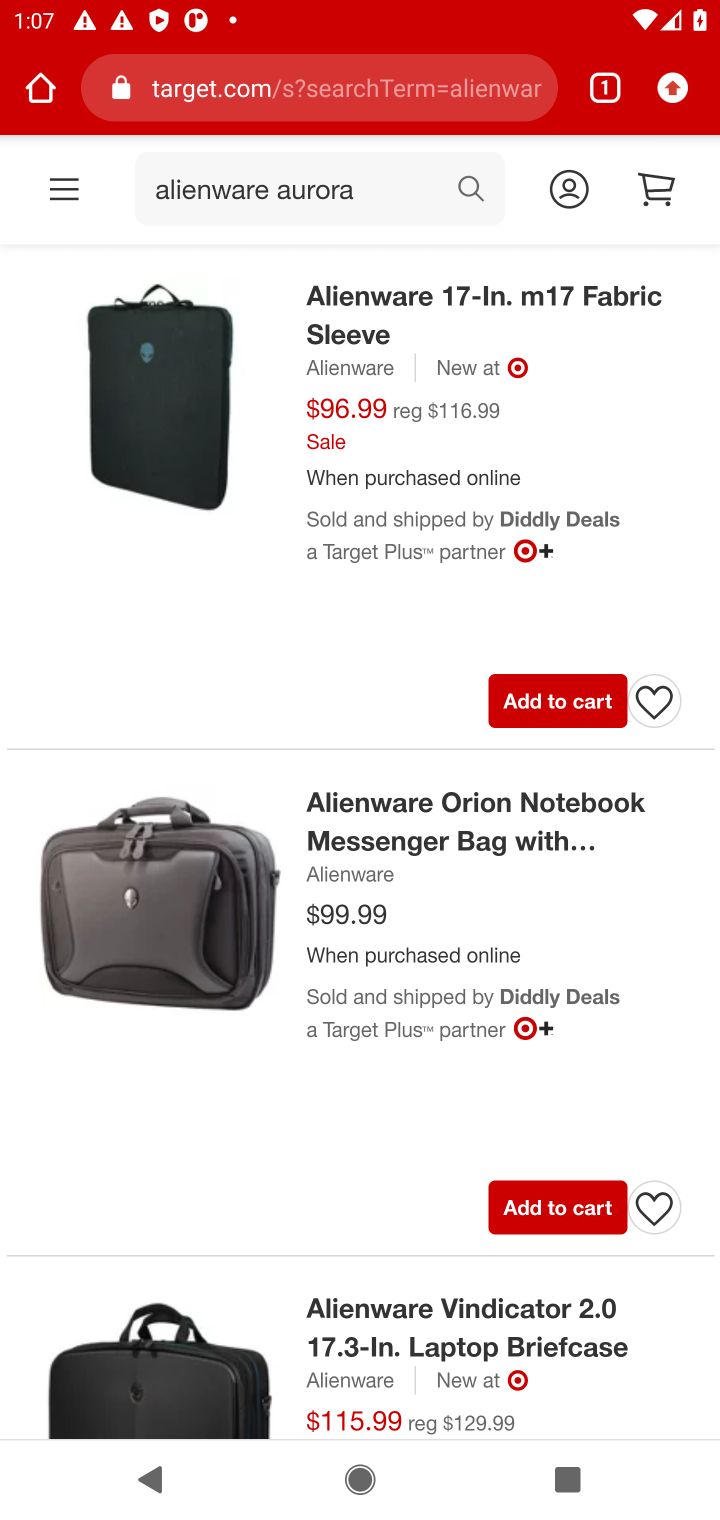
Step 25: drag from (389, 395) to (423, 1033)
Your task to perform on an android device: Empty the shopping cart on target. Add "alienware aurora" to the cart on target, then select checkout. Image 26: 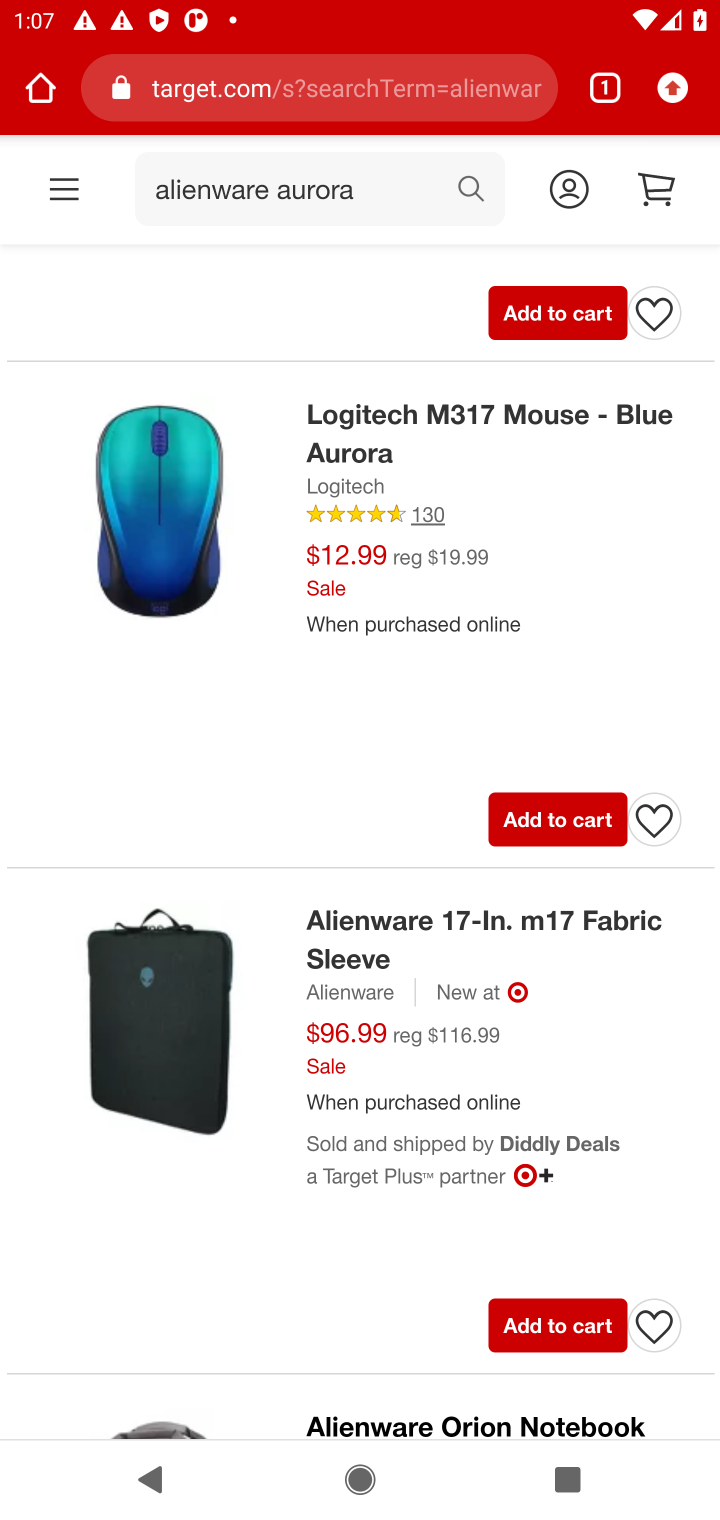
Step 26: drag from (453, 550) to (587, 1243)
Your task to perform on an android device: Empty the shopping cart on target. Add "alienware aurora" to the cart on target, then select checkout. Image 27: 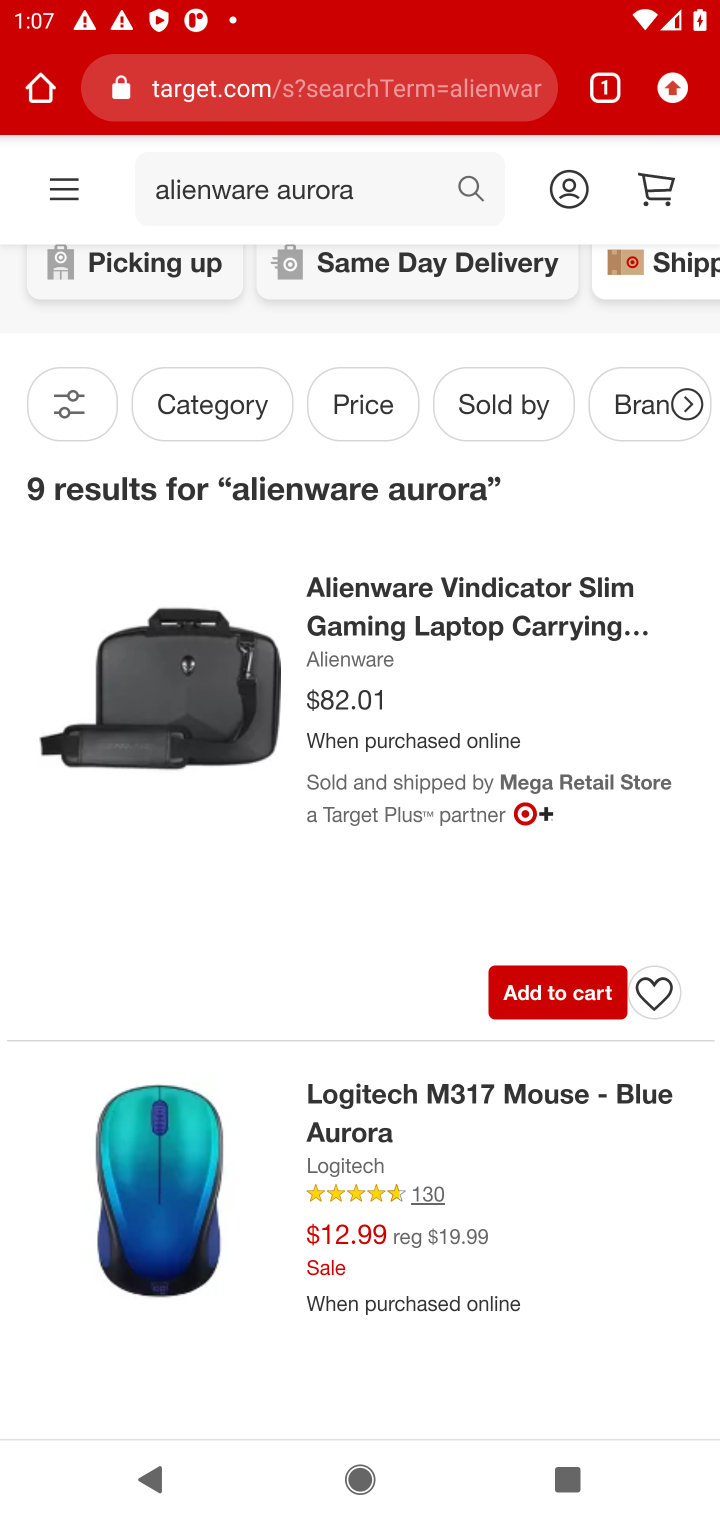
Step 27: click (107, 660)
Your task to perform on an android device: Empty the shopping cart on target. Add "alienware aurora" to the cart on target, then select checkout. Image 28: 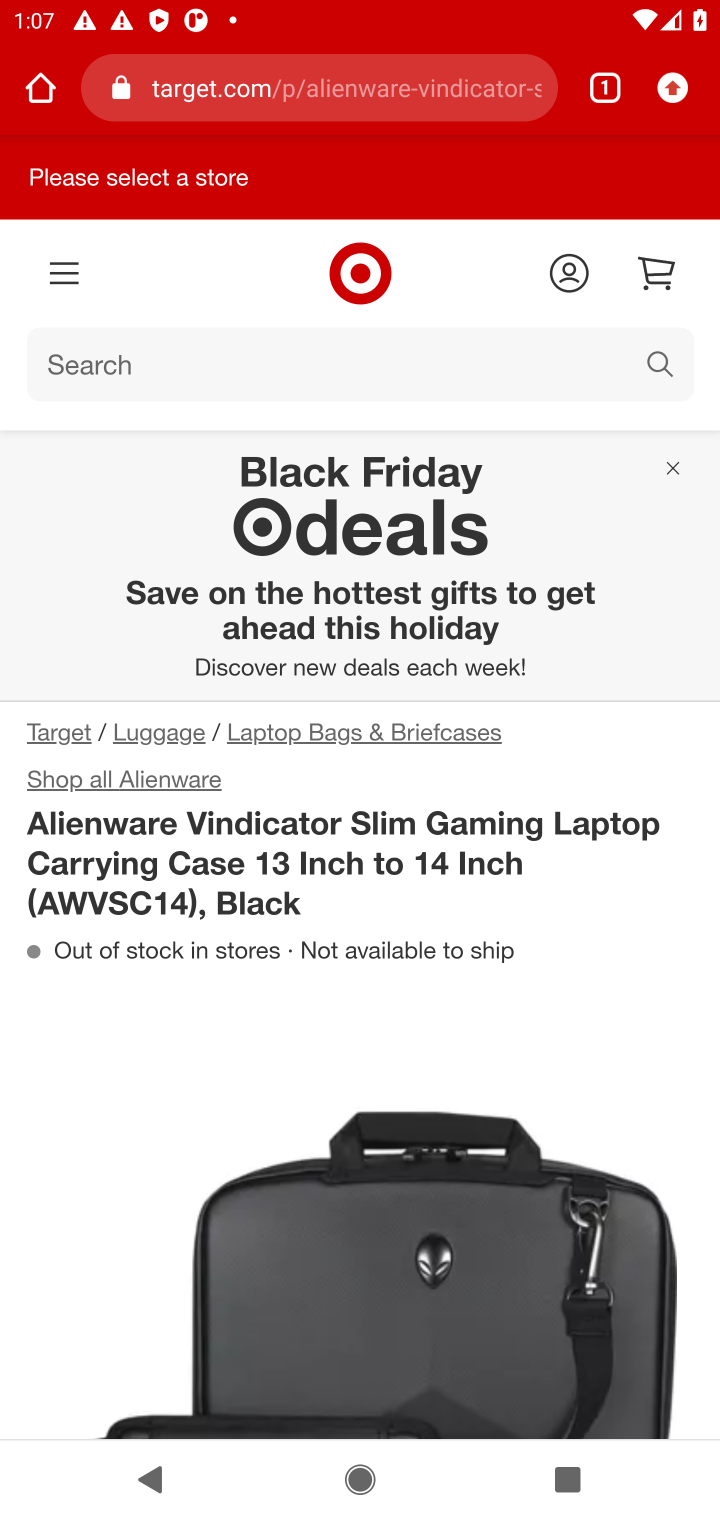
Step 28: drag from (578, 1044) to (618, 597)
Your task to perform on an android device: Empty the shopping cart on target. Add "alienware aurora" to the cart on target, then select checkout. Image 29: 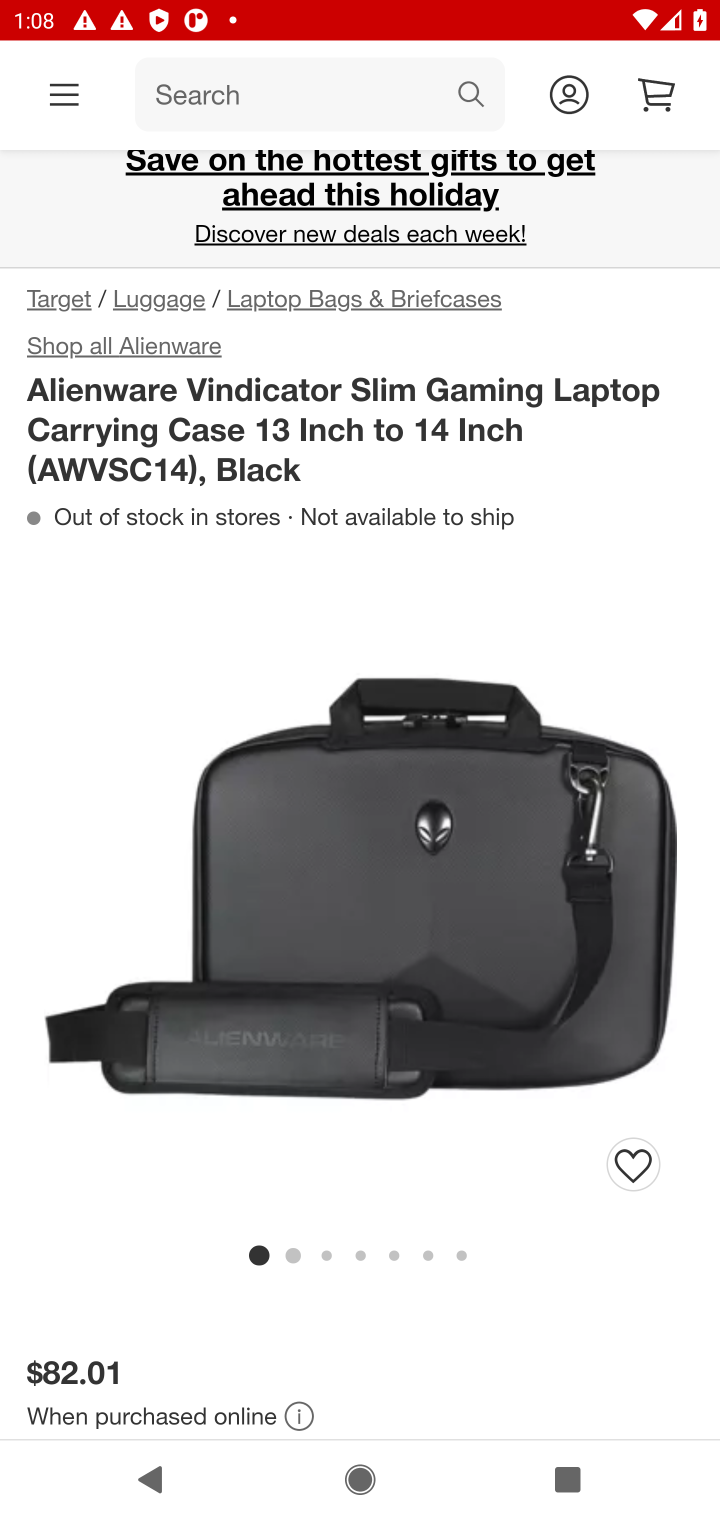
Step 29: drag from (525, 833) to (564, 231)
Your task to perform on an android device: Empty the shopping cart on target. Add "alienware aurora" to the cart on target, then select checkout. Image 30: 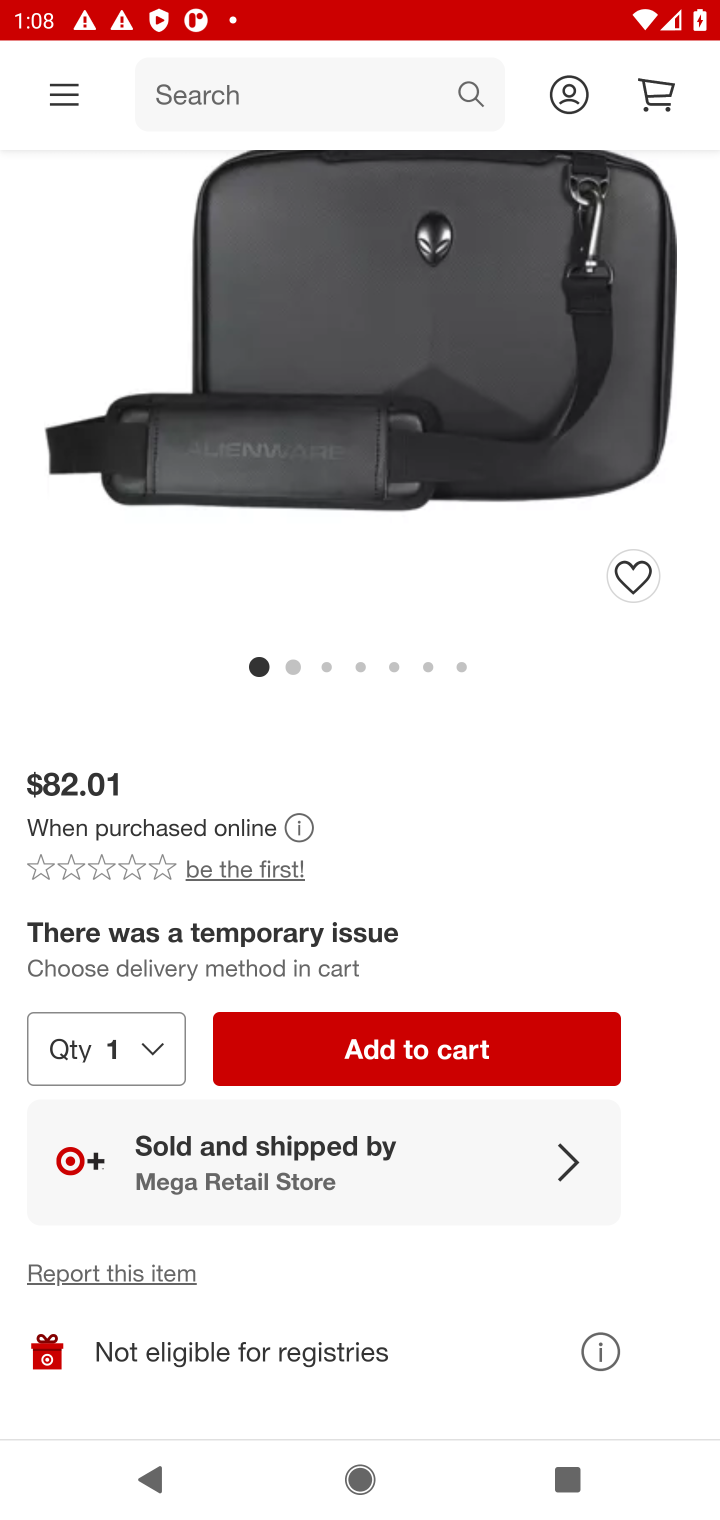
Step 30: click (514, 1039)
Your task to perform on an android device: Empty the shopping cart on target. Add "alienware aurora" to the cart on target, then select checkout. Image 31: 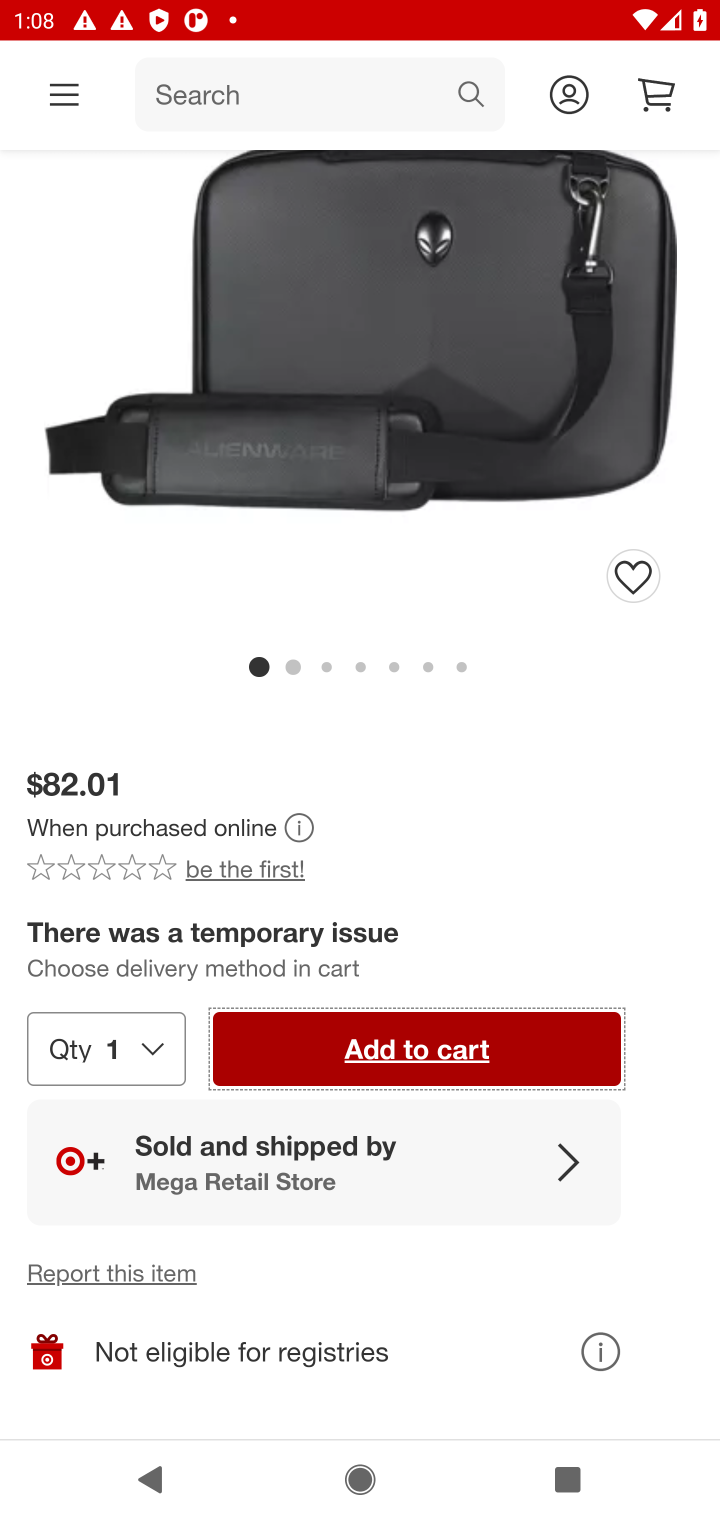
Step 31: click (447, 1051)
Your task to perform on an android device: Empty the shopping cart on target. Add "alienware aurora" to the cart on target, then select checkout. Image 32: 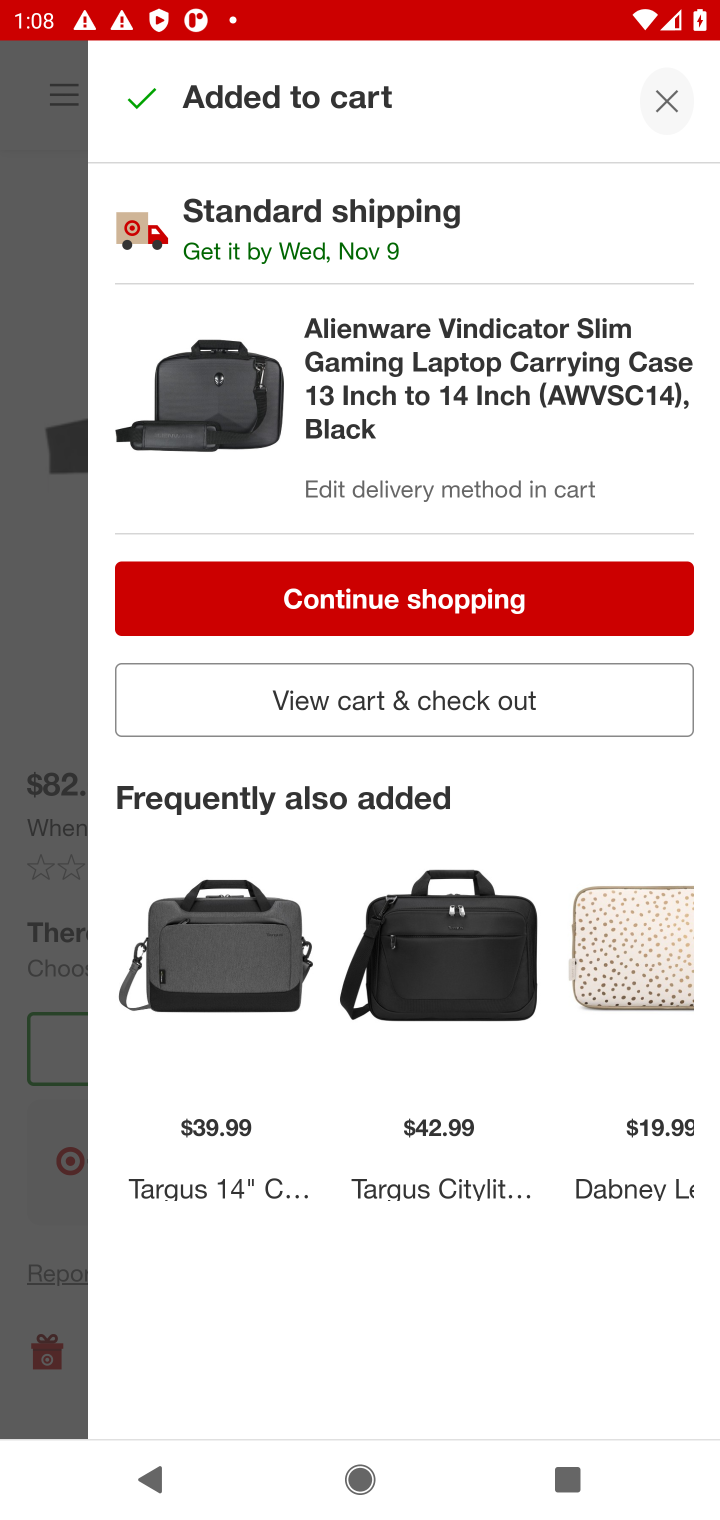
Step 32: click (659, 93)
Your task to perform on an android device: Empty the shopping cart on target. Add "alienware aurora" to the cart on target, then select checkout. Image 33: 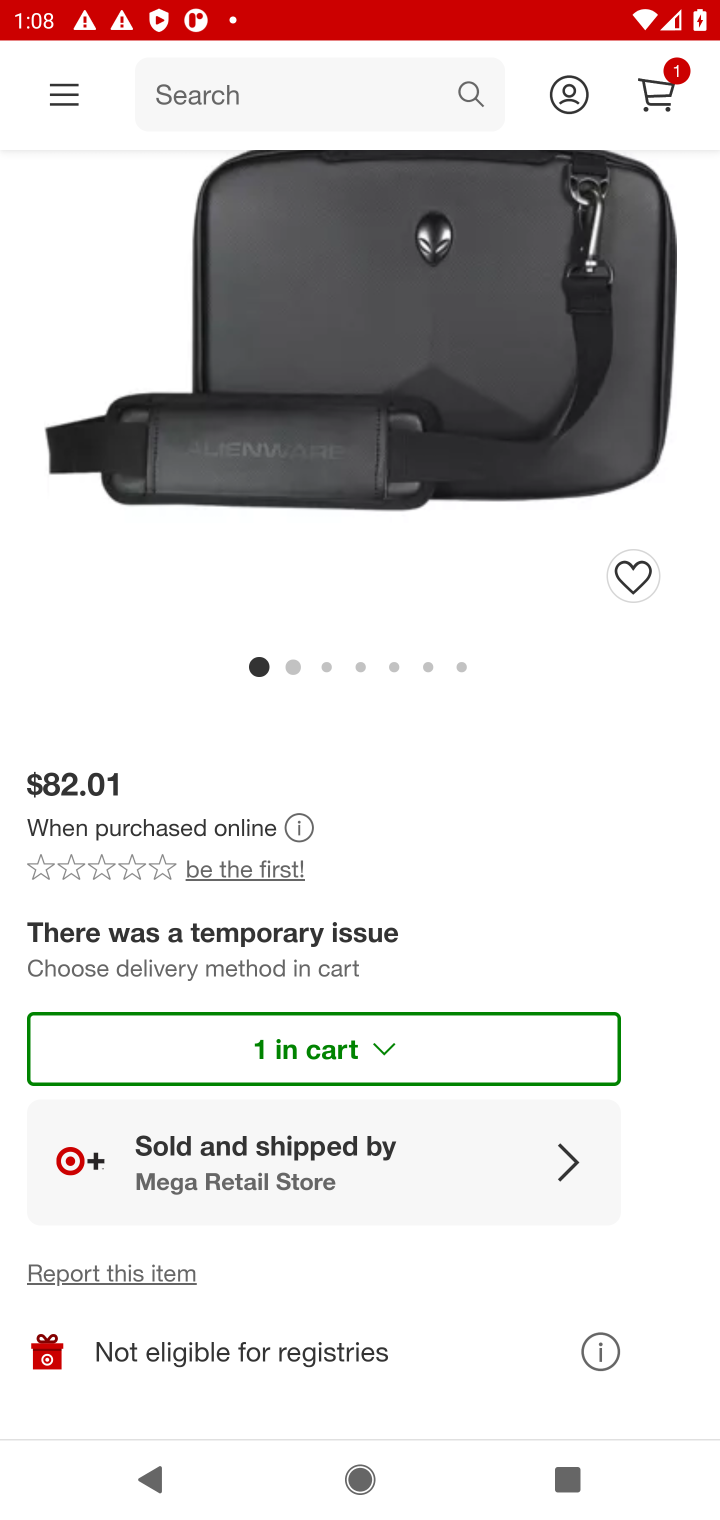
Step 33: click (664, 94)
Your task to perform on an android device: Empty the shopping cart on target. Add "alienware aurora" to the cart on target, then select checkout. Image 34: 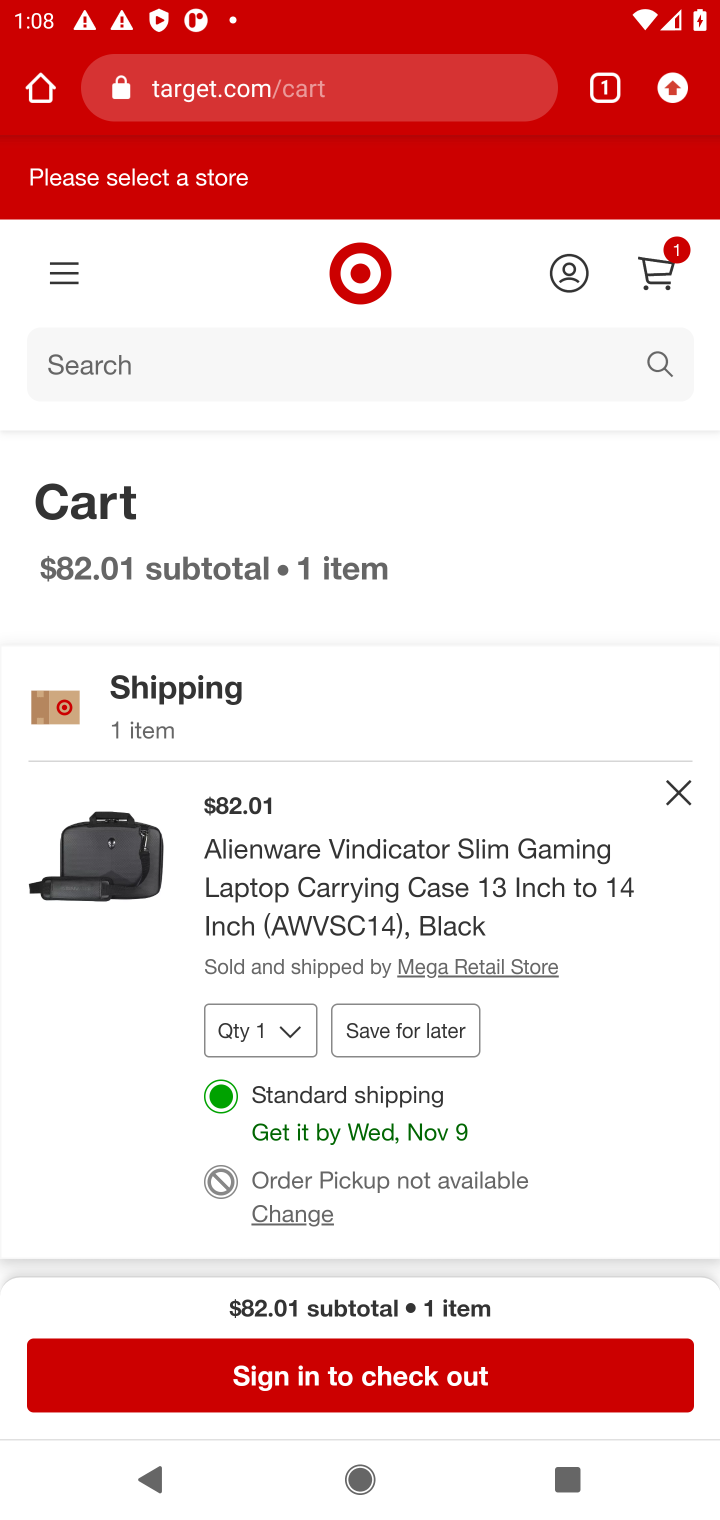
Step 34: click (448, 1369)
Your task to perform on an android device: Empty the shopping cart on target. Add "alienware aurora" to the cart on target, then select checkout. Image 35: 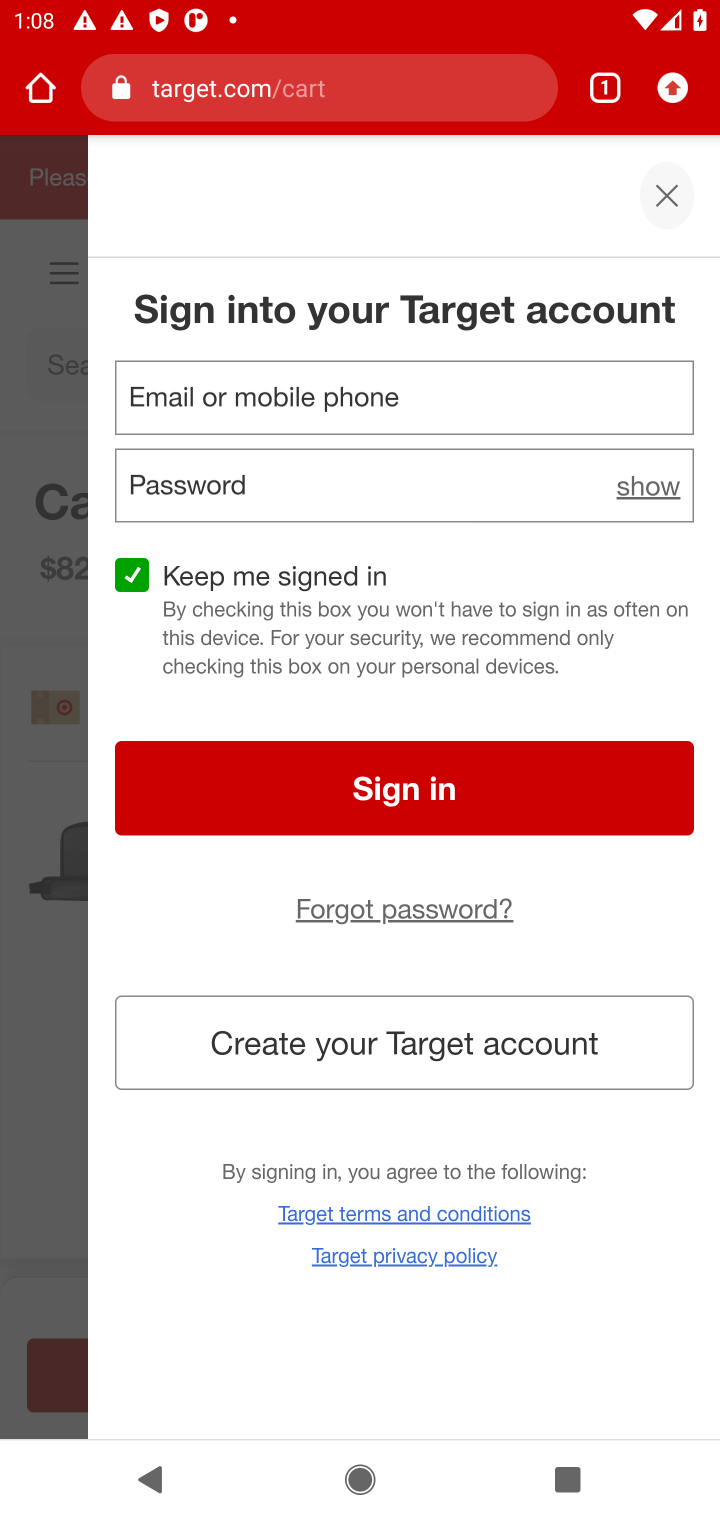
Step 35: task complete